Your task to perform on an android device: Search for "logitech g910" on target.com, select the first entry, add it to the cart, then select checkout. Image 0: 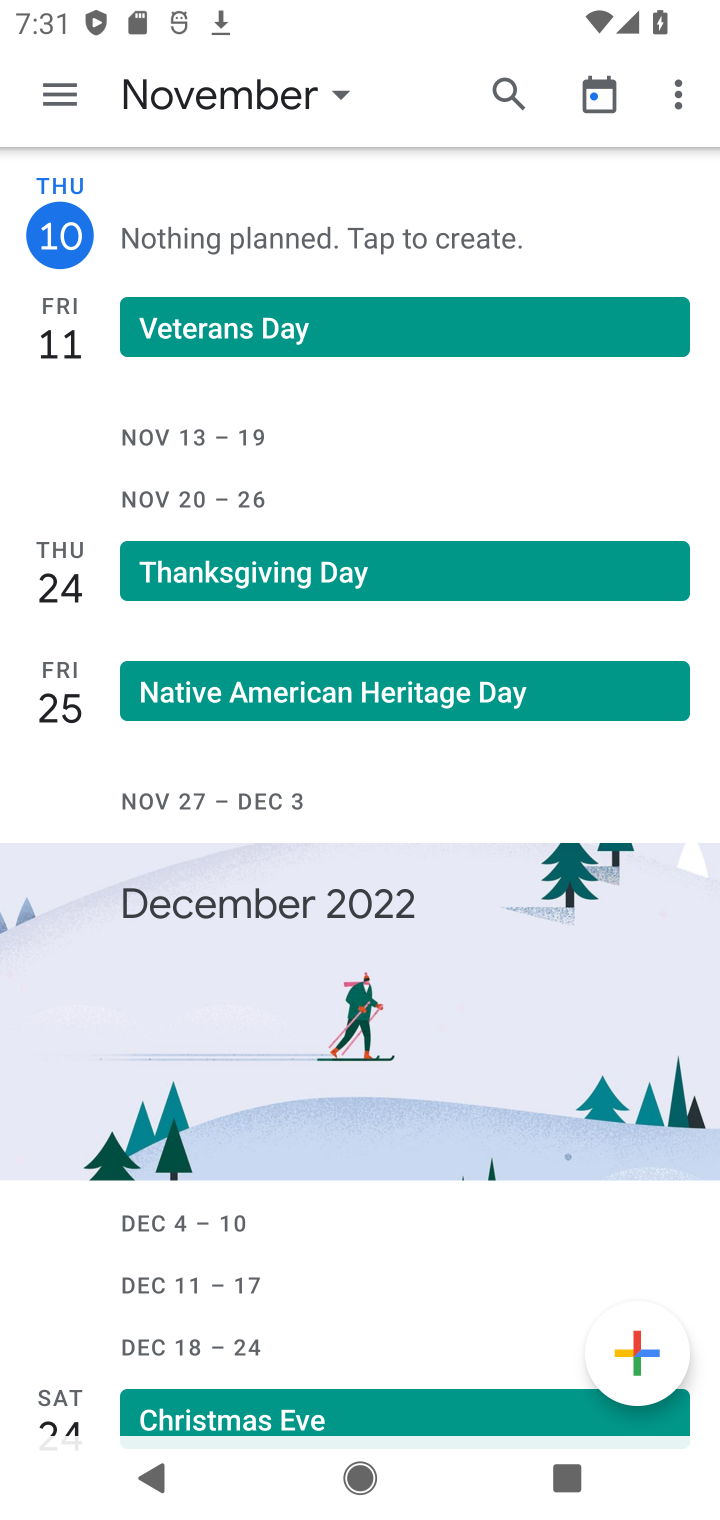
Step 0: press home button
Your task to perform on an android device: Search for "logitech g910" on target.com, select the first entry, add it to the cart, then select checkout. Image 1: 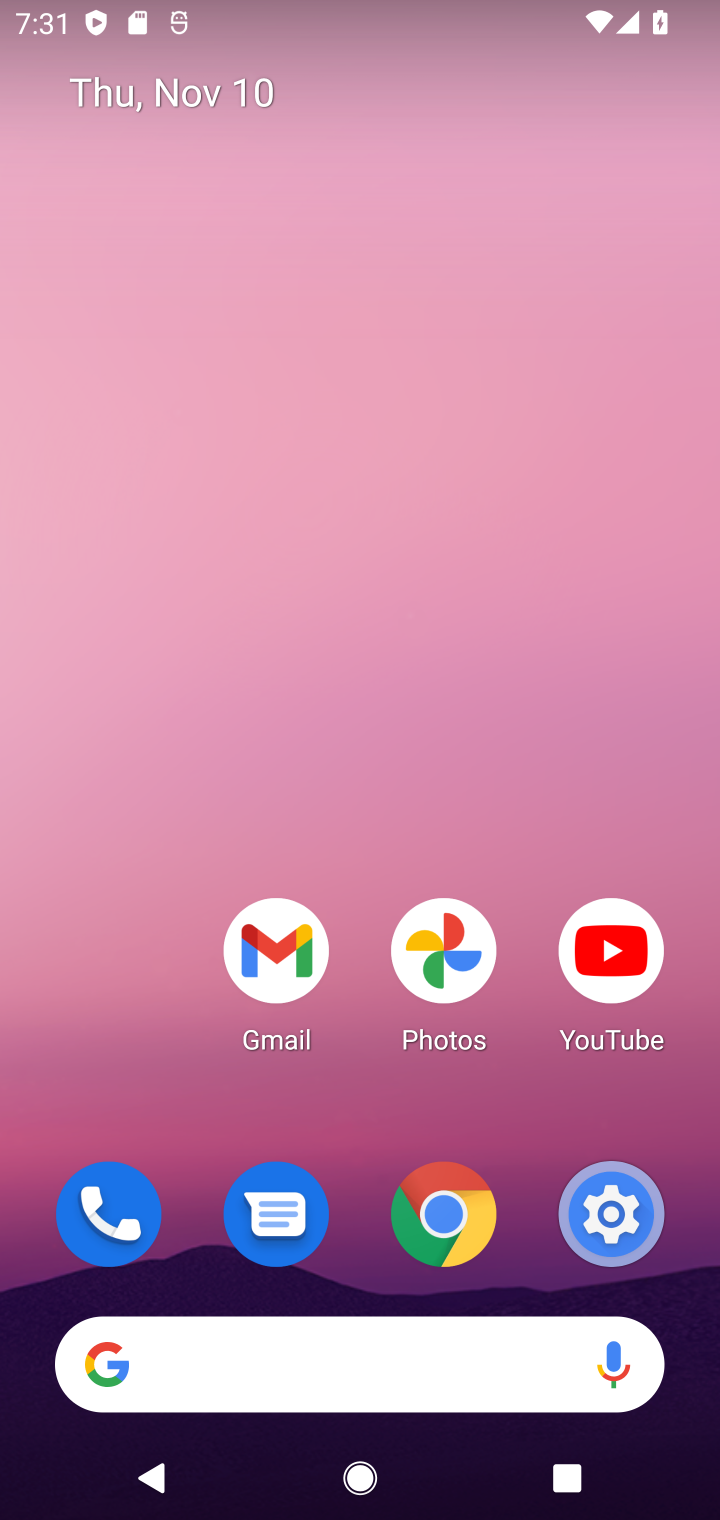
Step 1: drag from (151, 918) to (187, 380)
Your task to perform on an android device: Search for "logitech g910" on target.com, select the first entry, add it to the cart, then select checkout. Image 2: 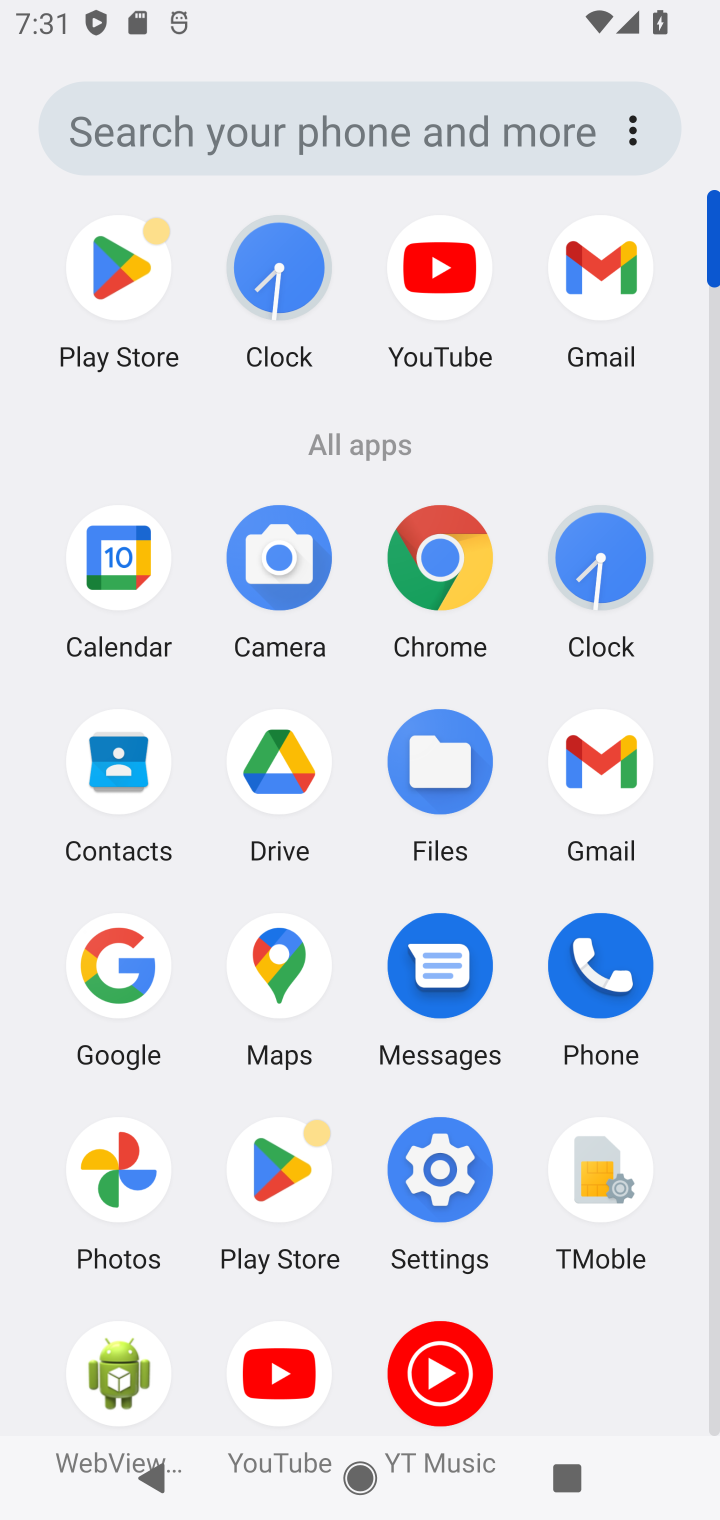
Step 2: click (454, 585)
Your task to perform on an android device: Search for "logitech g910" on target.com, select the first entry, add it to the cart, then select checkout. Image 3: 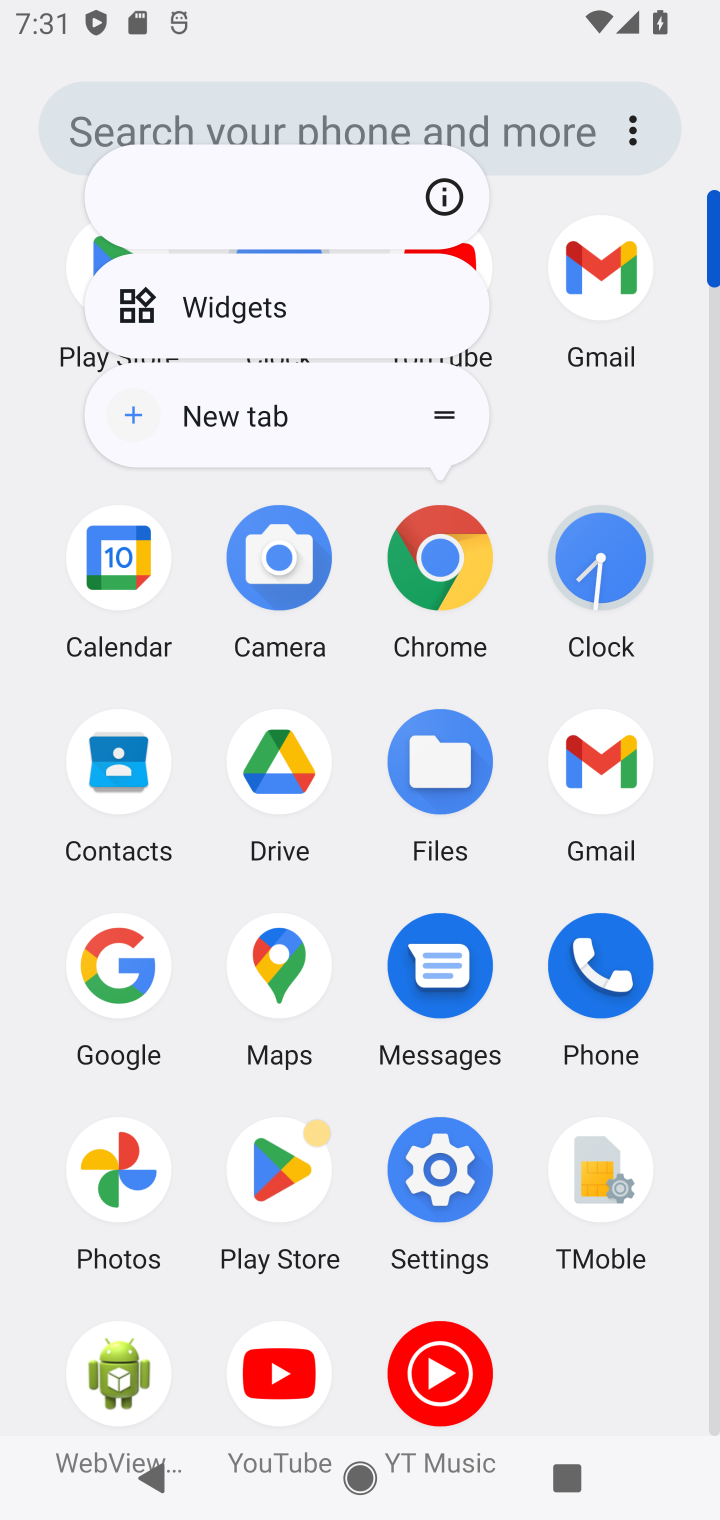
Step 3: click (454, 585)
Your task to perform on an android device: Search for "logitech g910" on target.com, select the first entry, add it to the cart, then select checkout. Image 4: 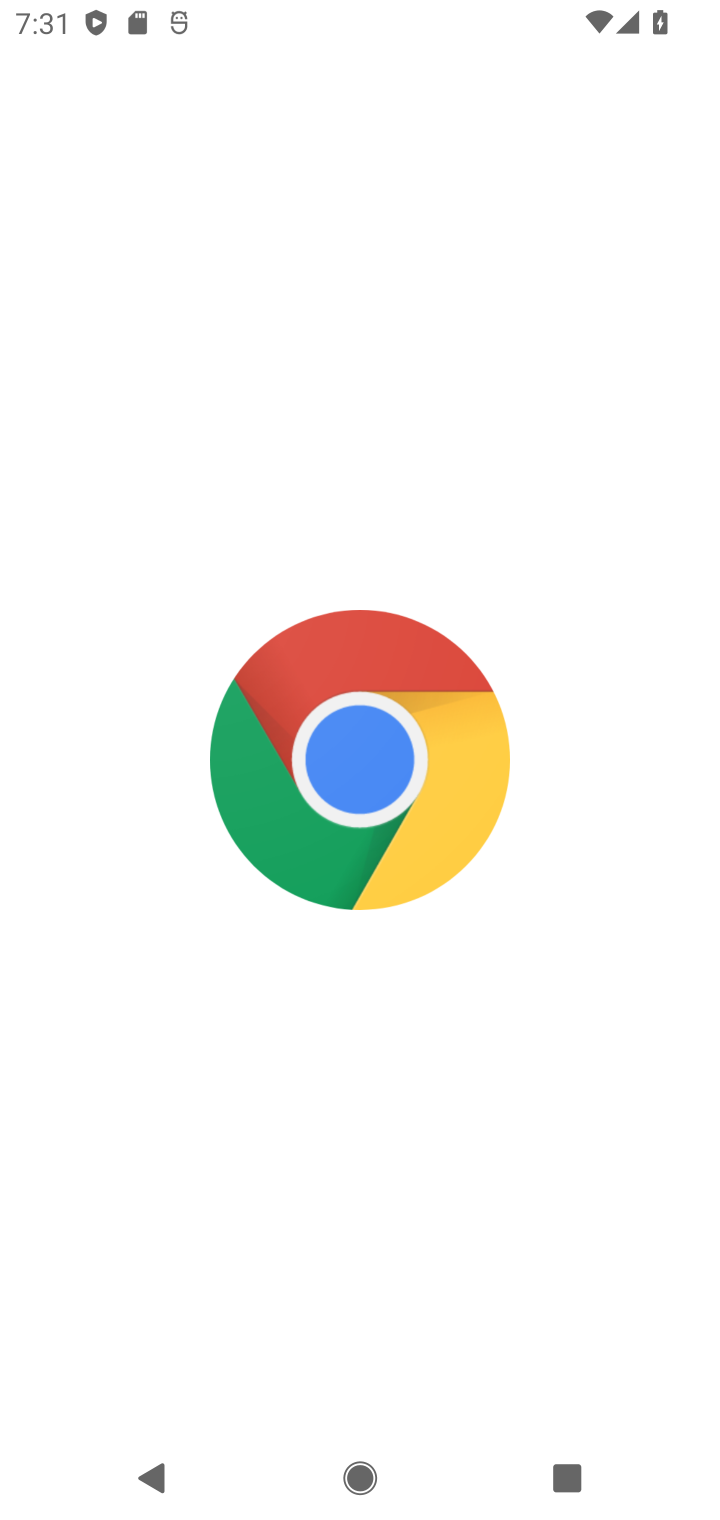
Step 4: click (454, 559)
Your task to perform on an android device: Search for "logitech g910" on target.com, select the first entry, add it to the cart, then select checkout. Image 5: 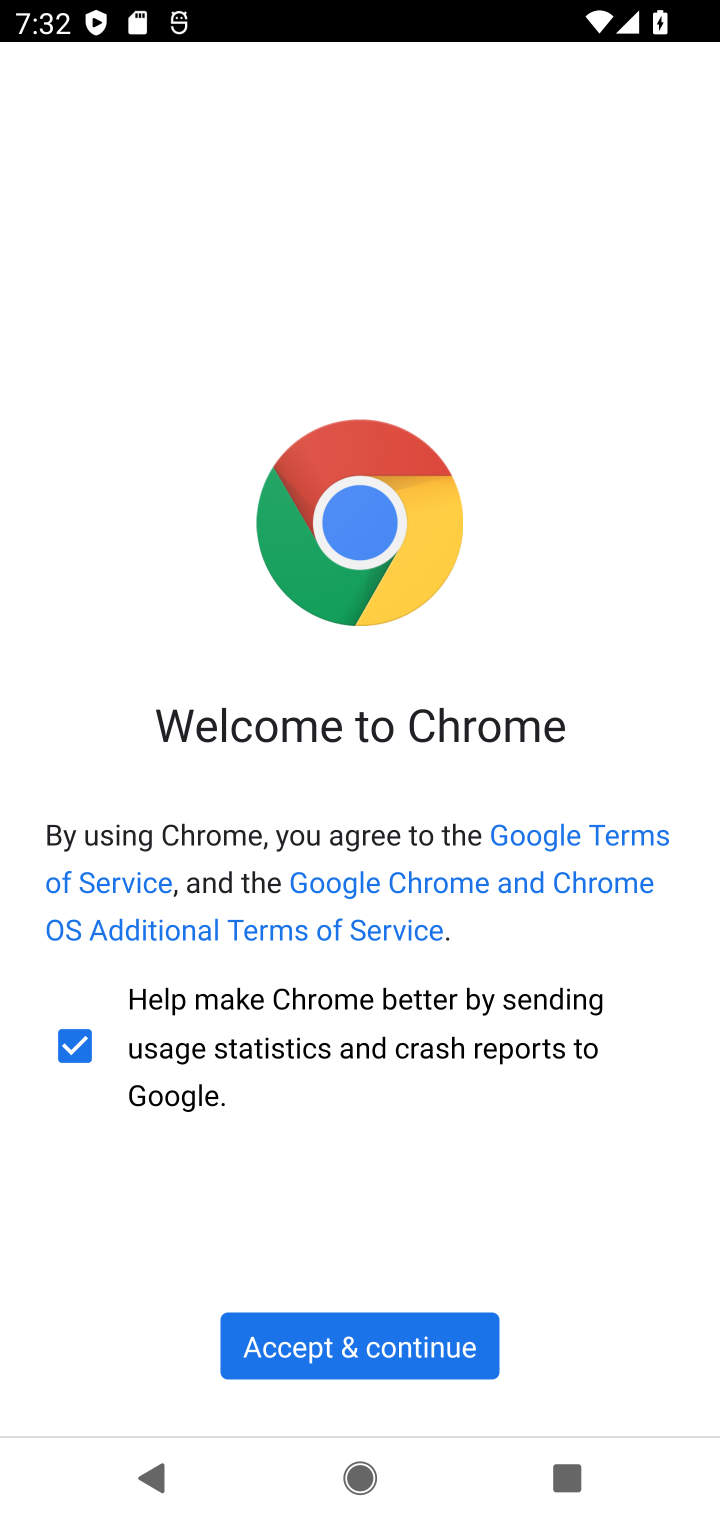
Step 5: click (365, 1326)
Your task to perform on an android device: Search for "logitech g910" on target.com, select the first entry, add it to the cart, then select checkout. Image 6: 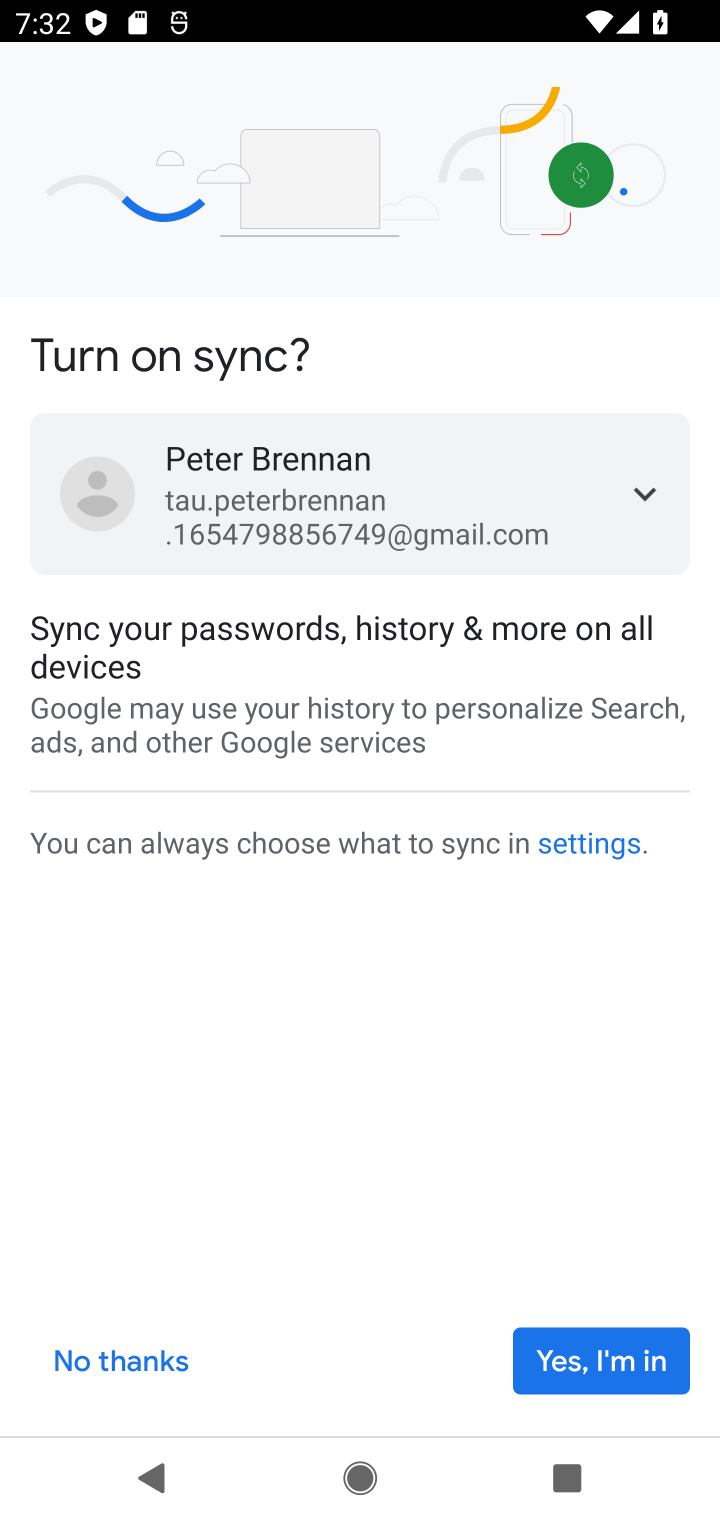
Step 6: click (654, 1343)
Your task to perform on an android device: Search for "logitech g910" on target.com, select the first entry, add it to the cart, then select checkout. Image 7: 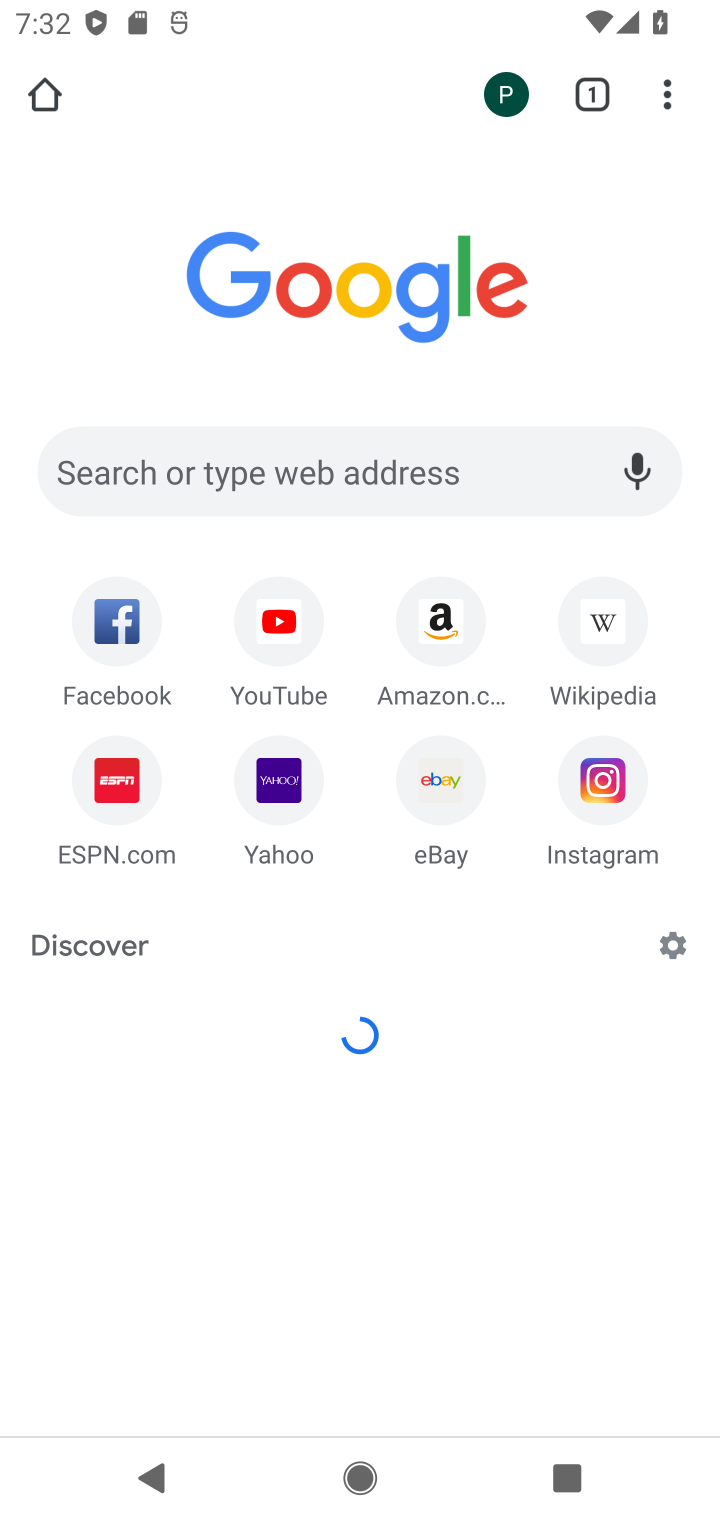
Step 7: click (236, 481)
Your task to perform on an android device: Search for "logitech g910" on target.com, select the first entry, add it to the cart, then select checkout. Image 8: 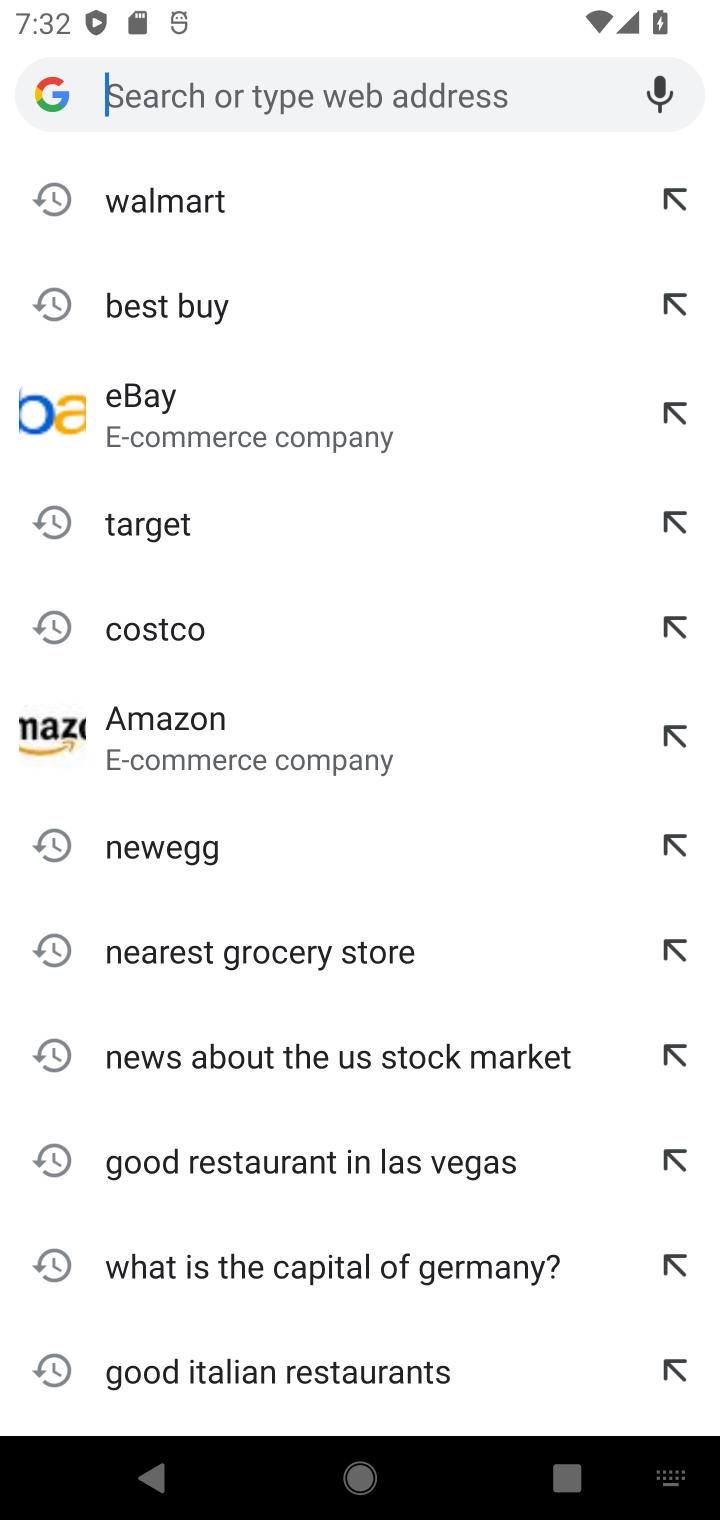
Step 8: type "target.com"
Your task to perform on an android device: Search for "logitech g910" on target.com, select the first entry, add it to the cart, then select checkout. Image 9: 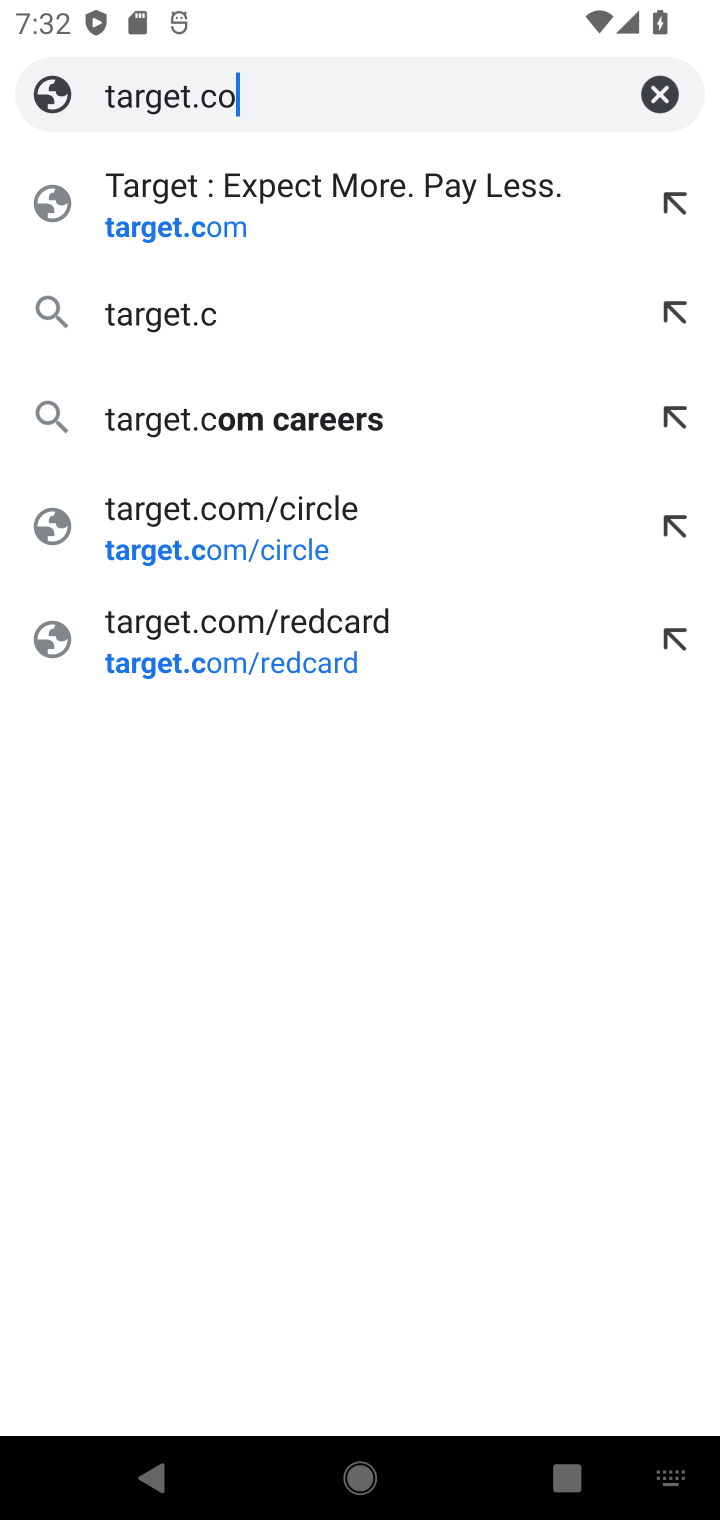
Step 9: press enter
Your task to perform on an android device: Search for "logitech g910" on target.com, select the first entry, add it to the cart, then select checkout. Image 10: 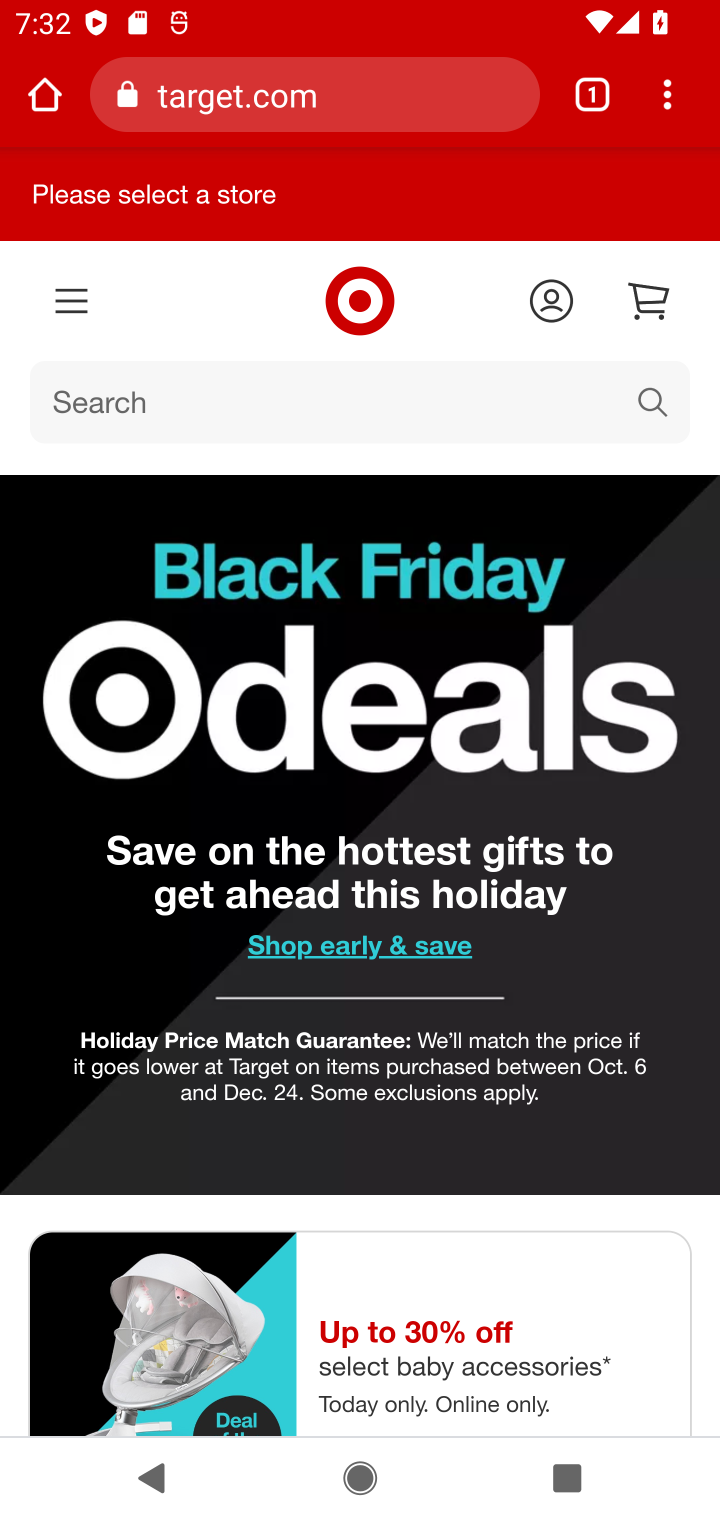
Step 10: click (140, 392)
Your task to perform on an android device: Search for "logitech g910" on target.com, select the first entry, add it to the cart, then select checkout. Image 11: 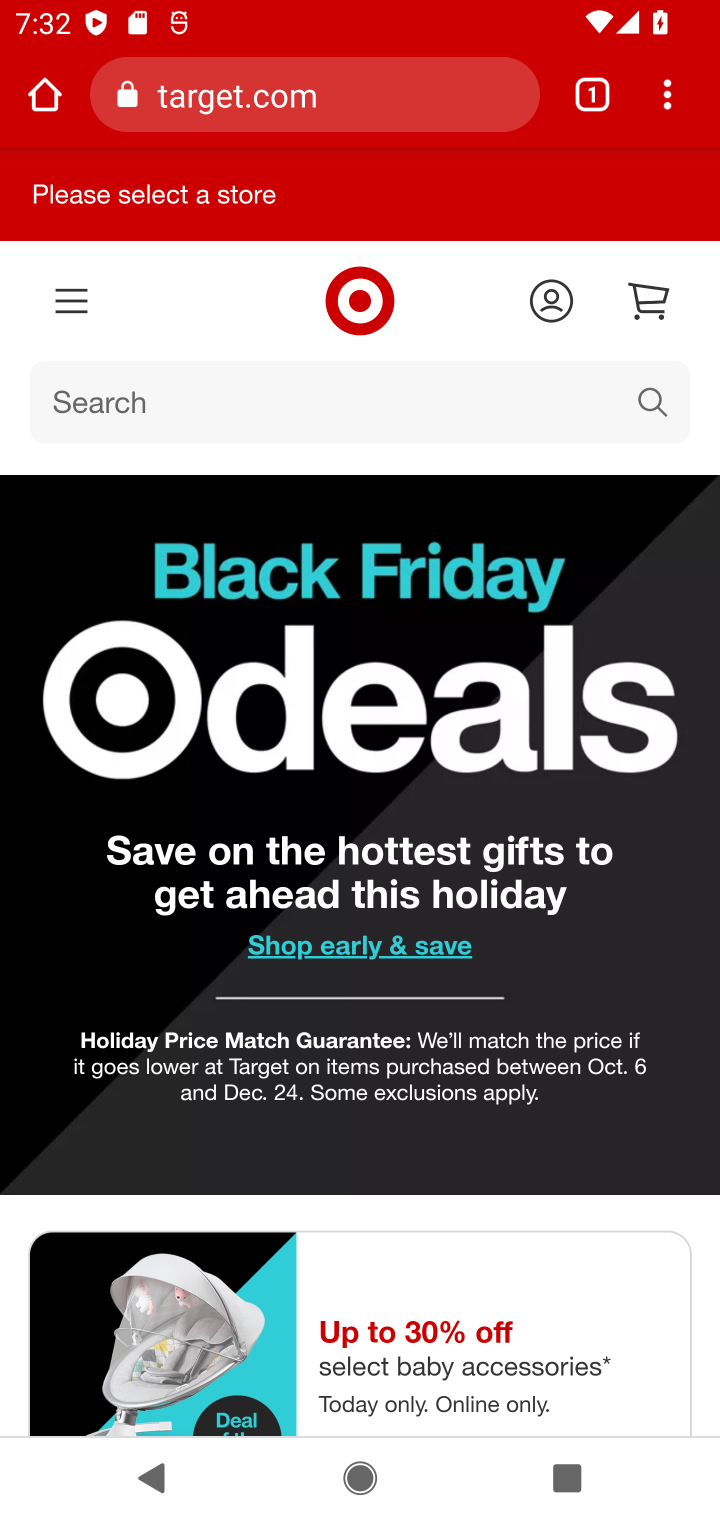
Step 11: type "logitech g910"
Your task to perform on an android device: Search for "logitech g910" on target.com, select the first entry, add it to the cart, then select checkout. Image 12: 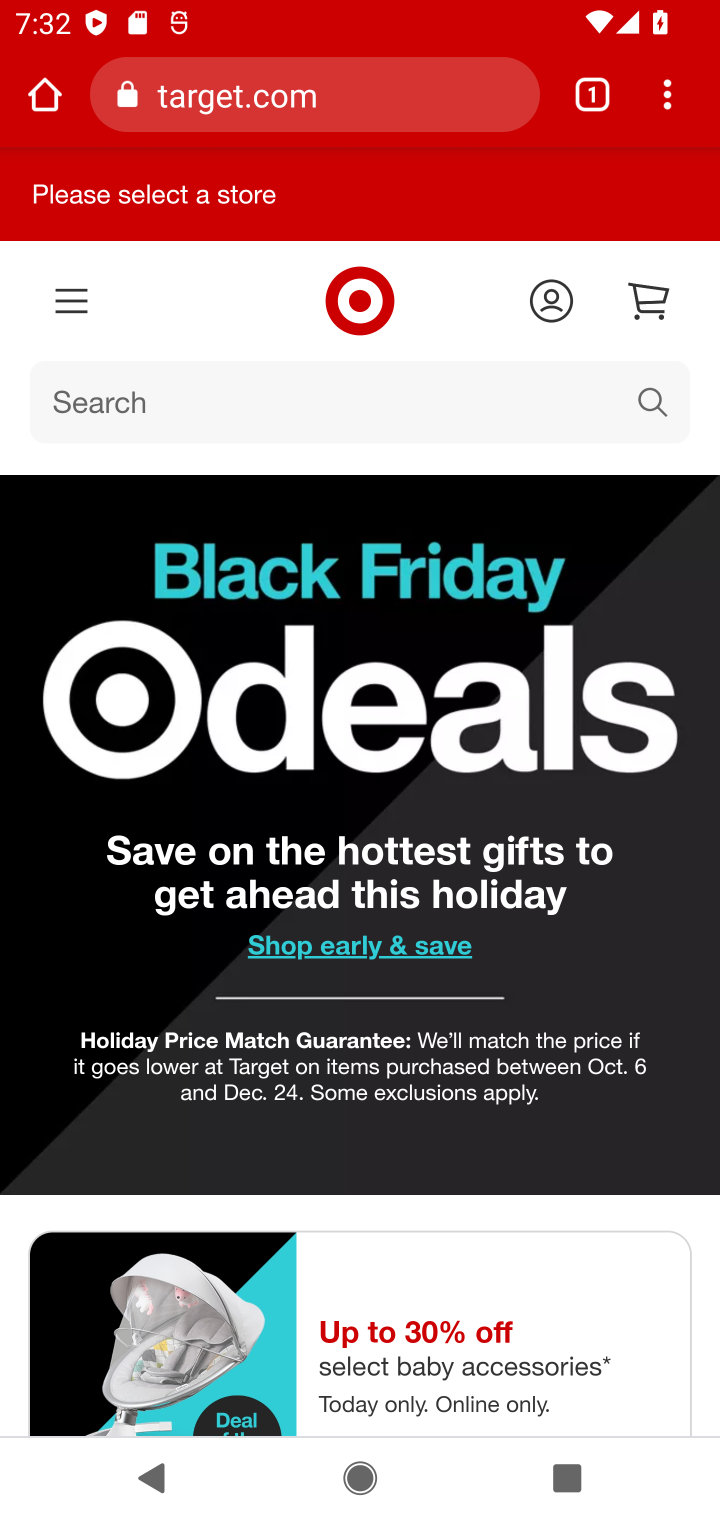
Step 12: press enter
Your task to perform on an android device: Search for "logitech g910" on target.com, select the first entry, add it to the cart, then select checkout. Image 13: 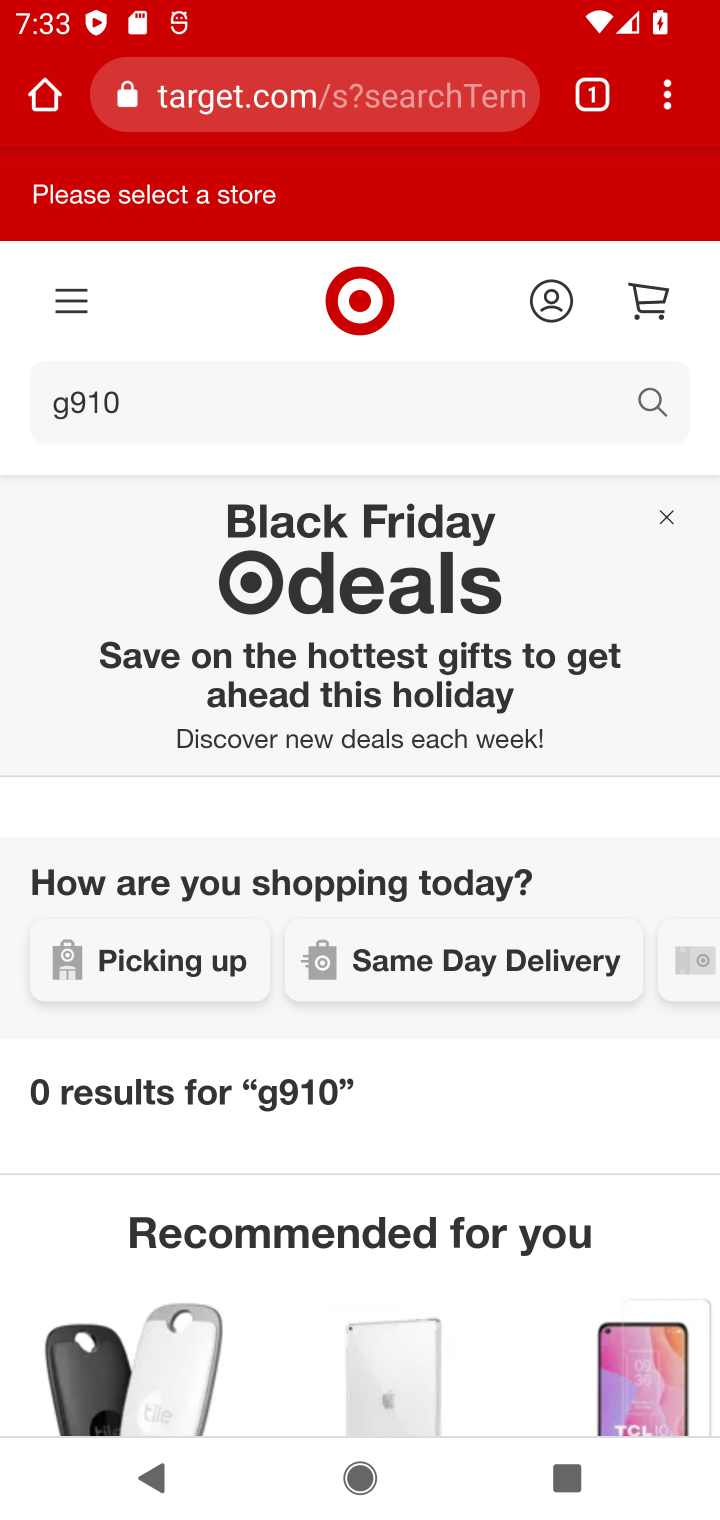
Step 13: click (305, 402)
Your task to perform on an android device: Search for "logitech g910" on target.com, select the first entry, add it to the cart, then select checkout. Image 14: 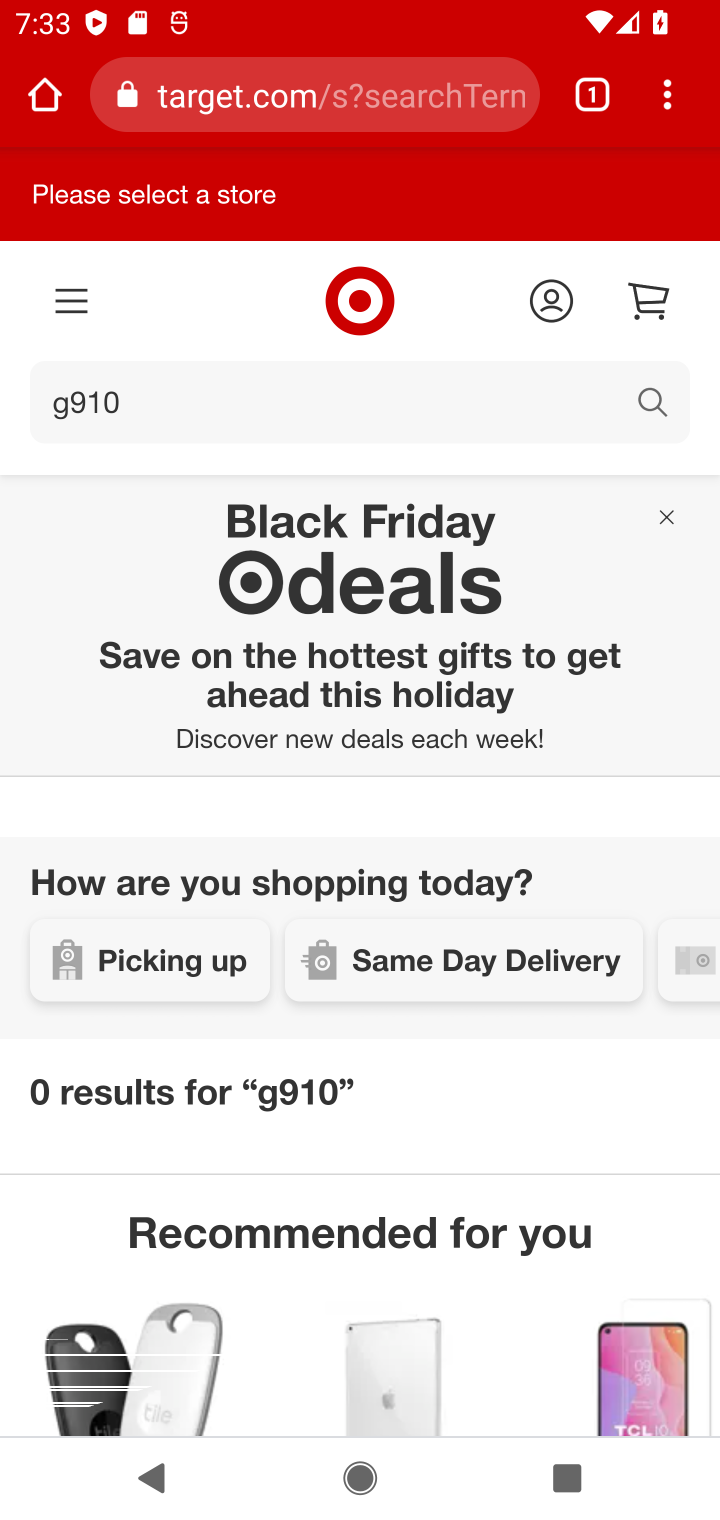
Step 14: click (305, 402)
Your task to perform on an android device: Search for "logitech g910" on target.com, select the first entry, add it to the cart, then select checkout. Image 15: 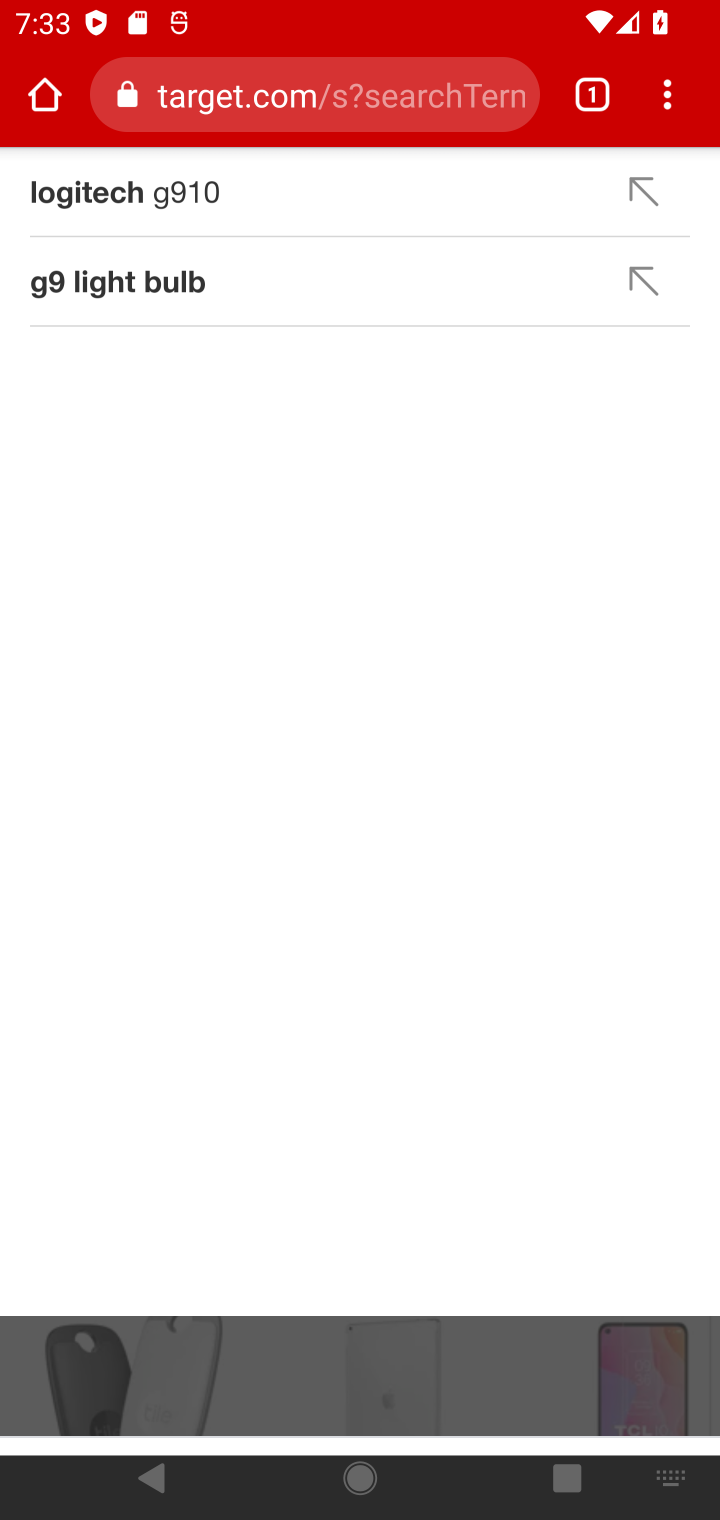
Step 15: click (305, 402)
Your task to perform on an android device: Search for "logitech g910" on target.com, select the first entry, add it to the cart, then select checkout. Image 16: 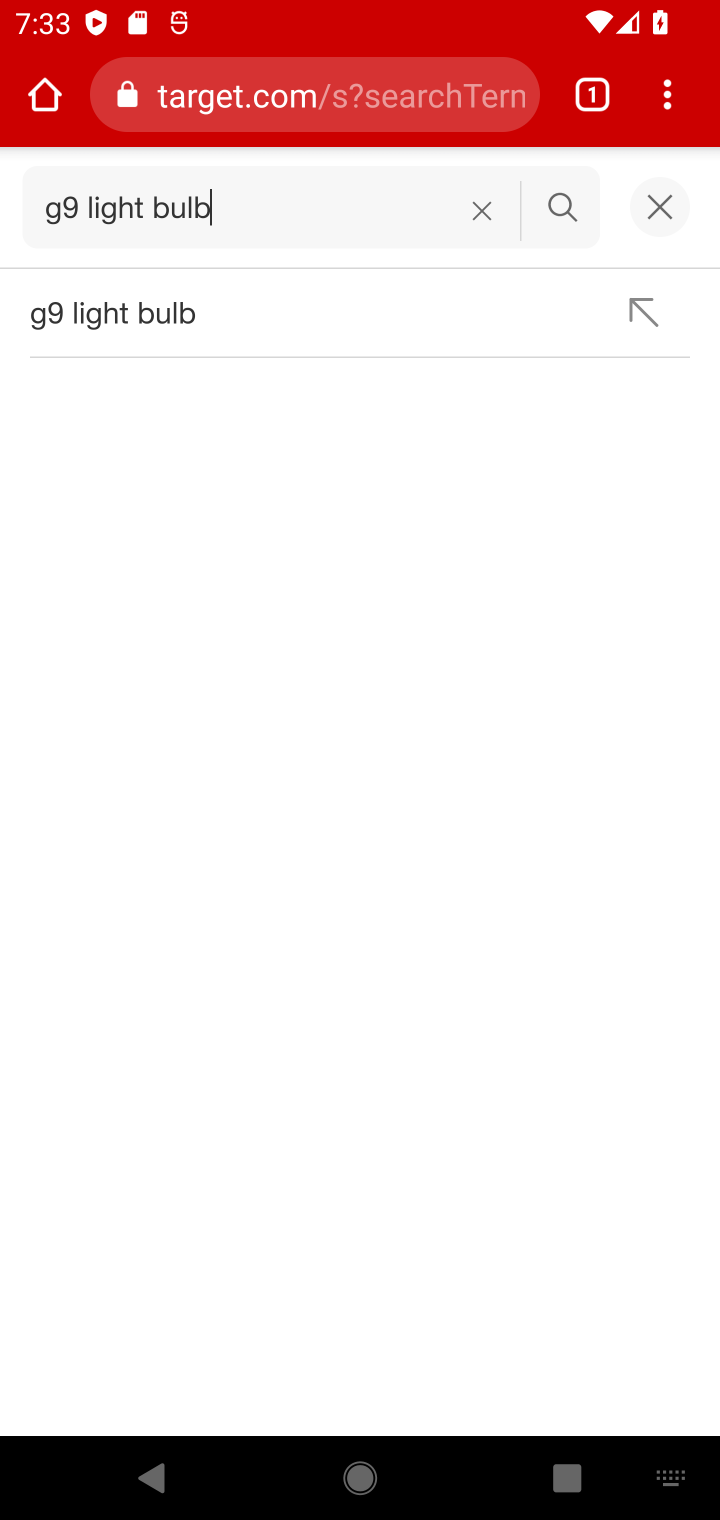
Step 16: click (321, 400)
Your task to perform on an android device: Search for "logitech g910" on target.com, select the first entry, add it to the cart, then select checkout. Image 17: 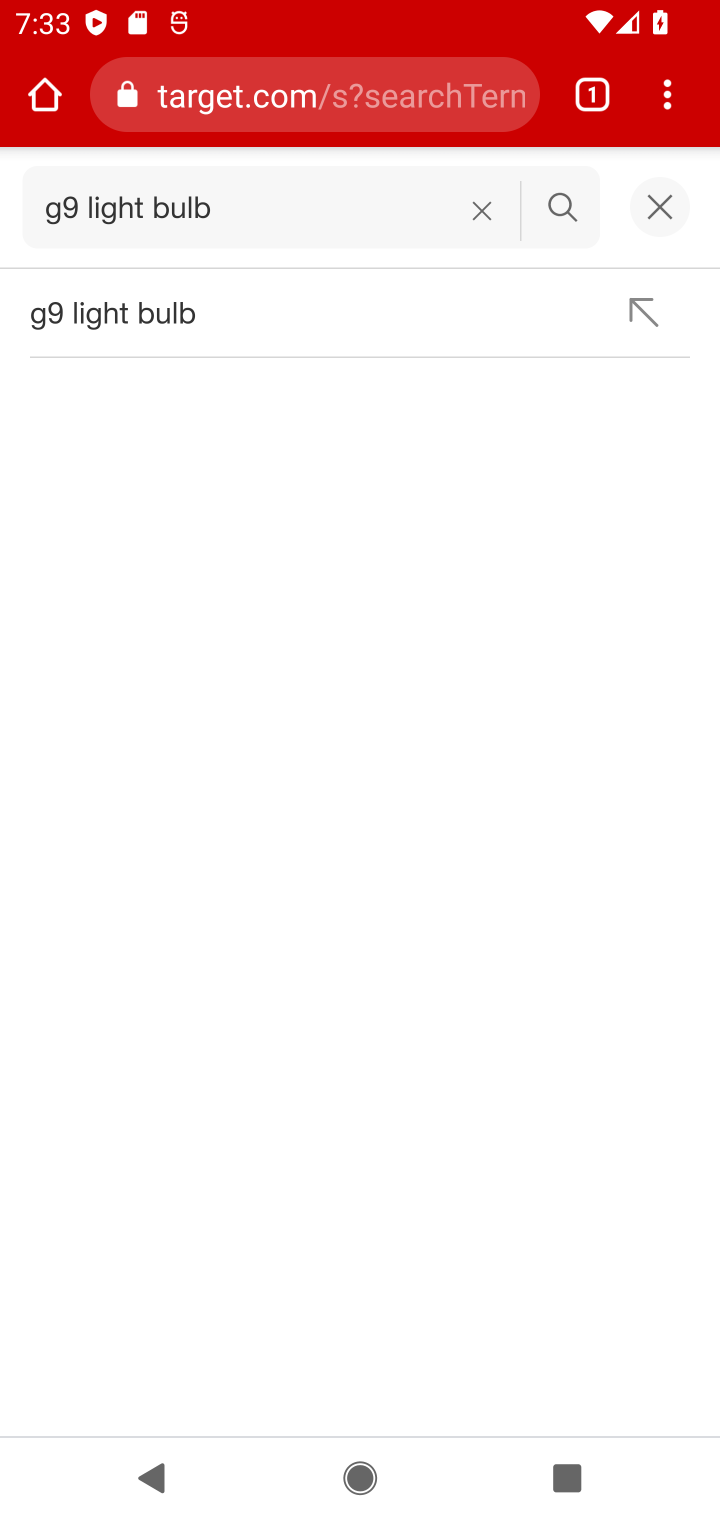
Step 17: click (480, 209)
Your task to perform on an android device: Search for "logitech g910" on target.com, select the first entry, add it to the cart, then select checkout. Image 18: 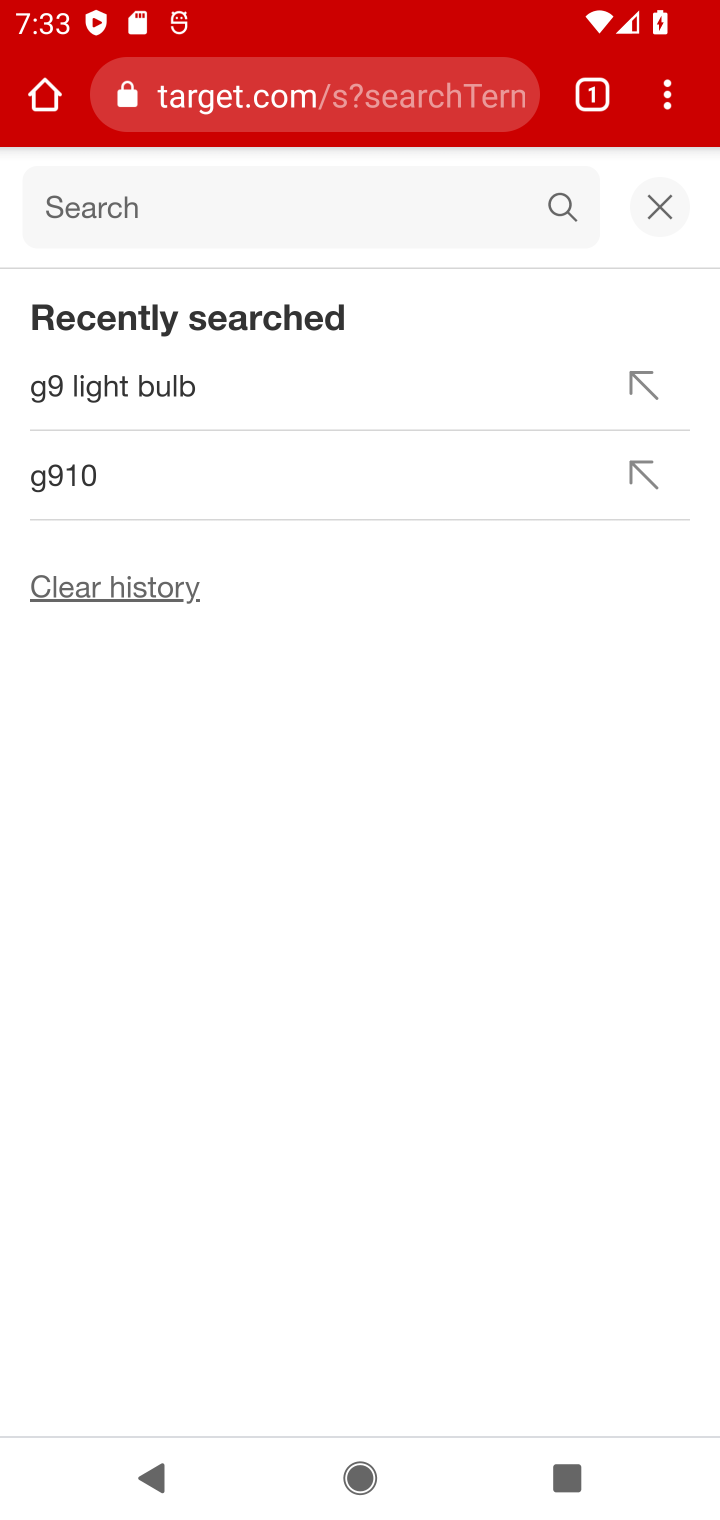
Step 18: click (474, 218)
Your task to perform on an android device: Search for "logitech g910" on target.com, select the first entry, add it to the cart, then select checkout. Image 19: 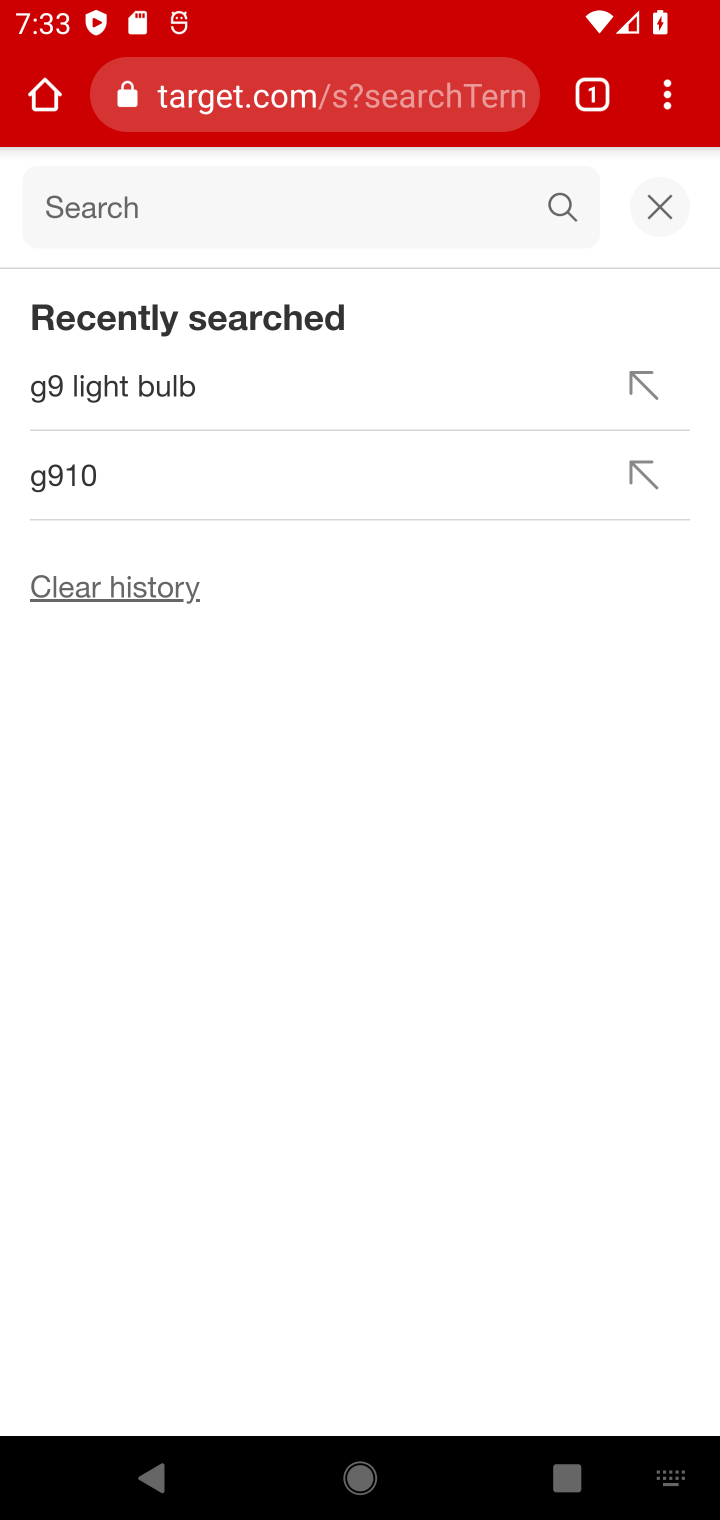
Step 19: type "logitech g910"
Your task to perform on an android device: Search for "logitech g910" on target.com, select the first entry, add it to the cart, then select checkout. Image 20: 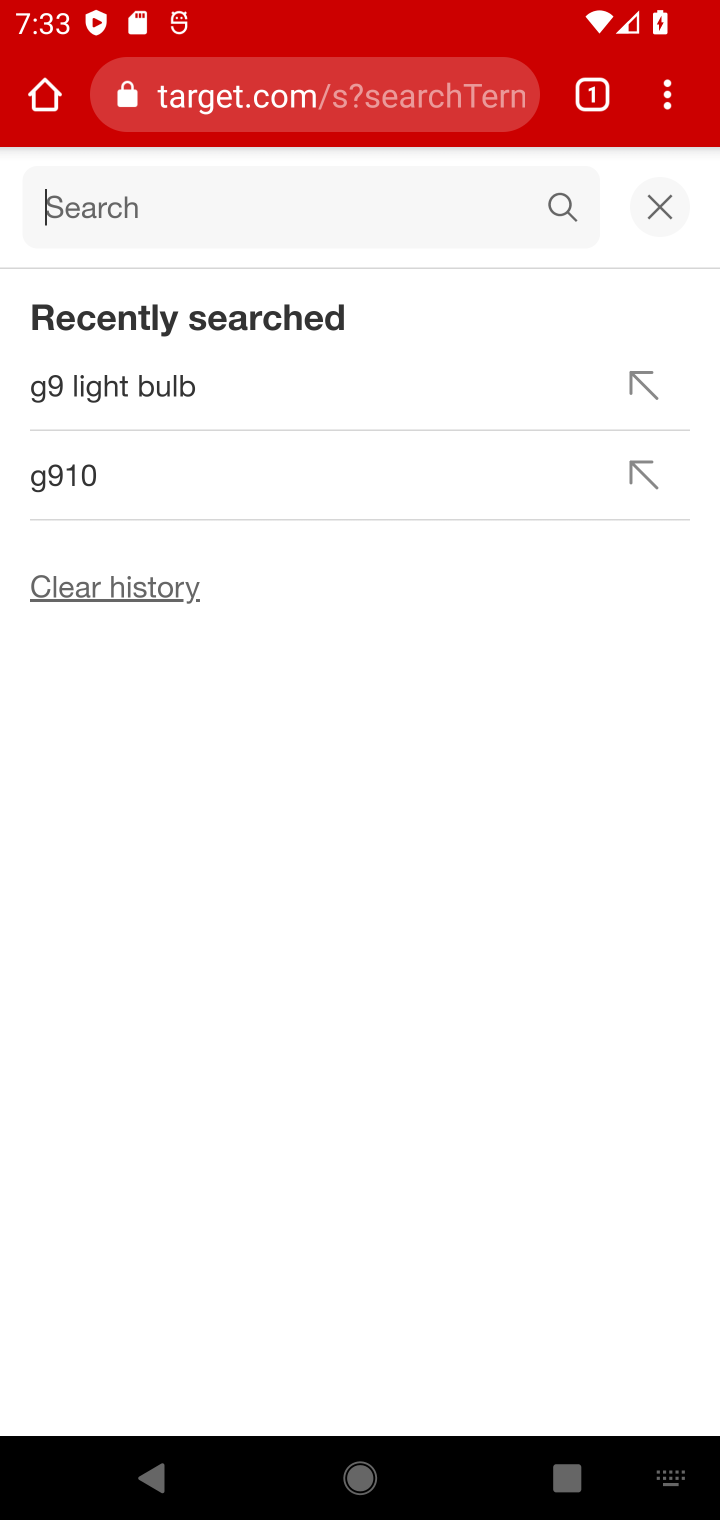
Step 20: press enter
Your task to perform on an android device: Search for "logitech g910" on target.com, select the first entry, add it to the cart, then select checkout. Image 21: 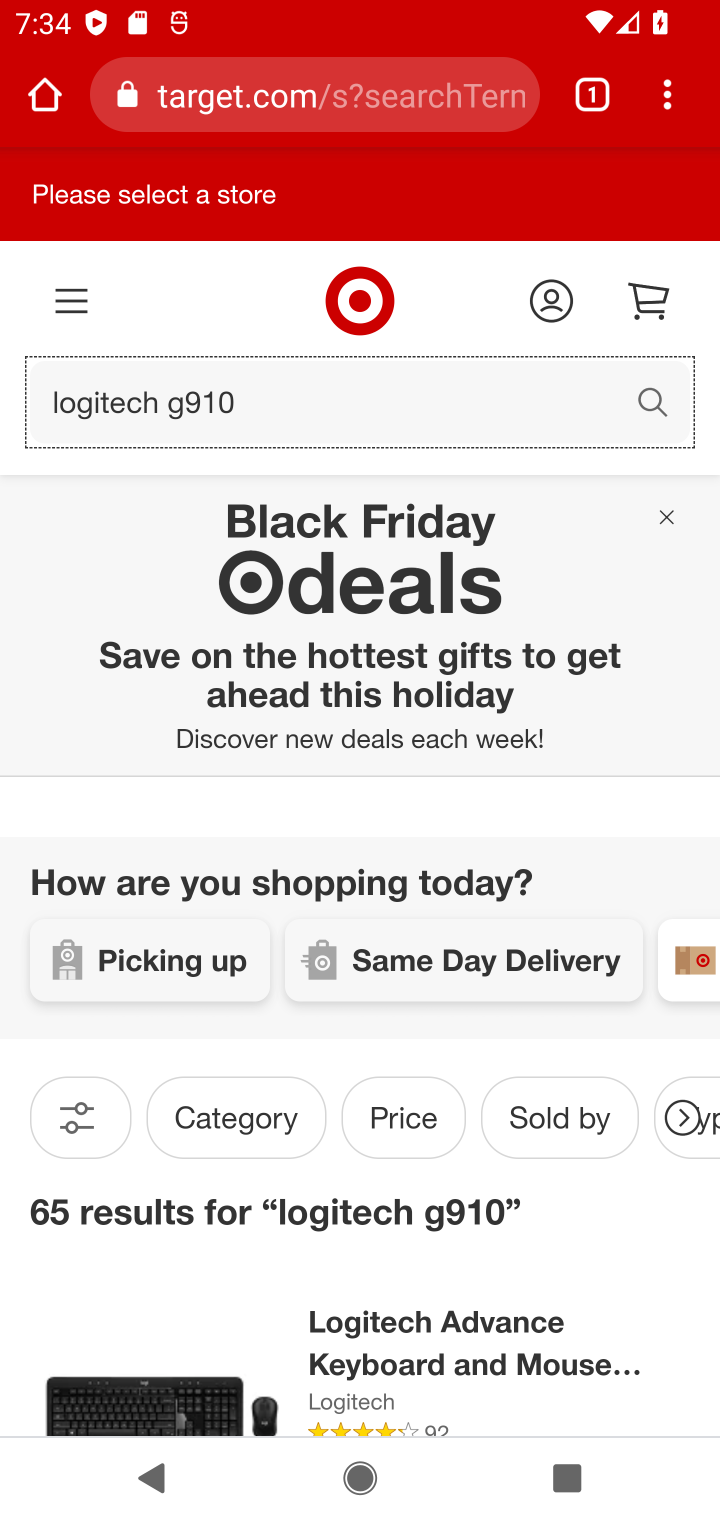
Step 21: click (336, 454)
Your task to perform on an android device: Search for "logitech g910" on target.com, select the first entry, add it to the cart, then select checkout. Image 22: 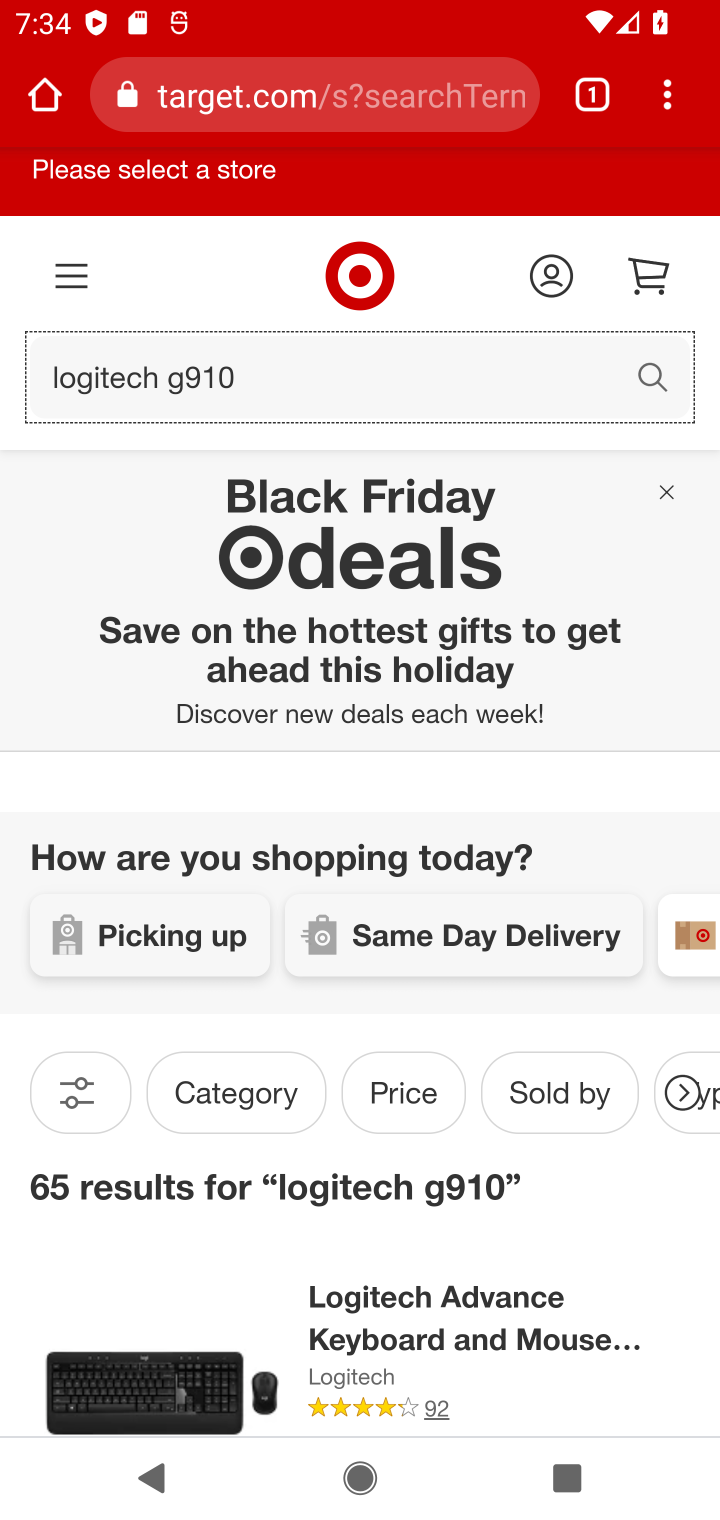
Step 22: drag from (363, 1209) to (336, 613)
Your task to perform on an android device: Search for "logitech g910" on target.com, select the first entry, add it to the cart, then select checkout. Image 23: 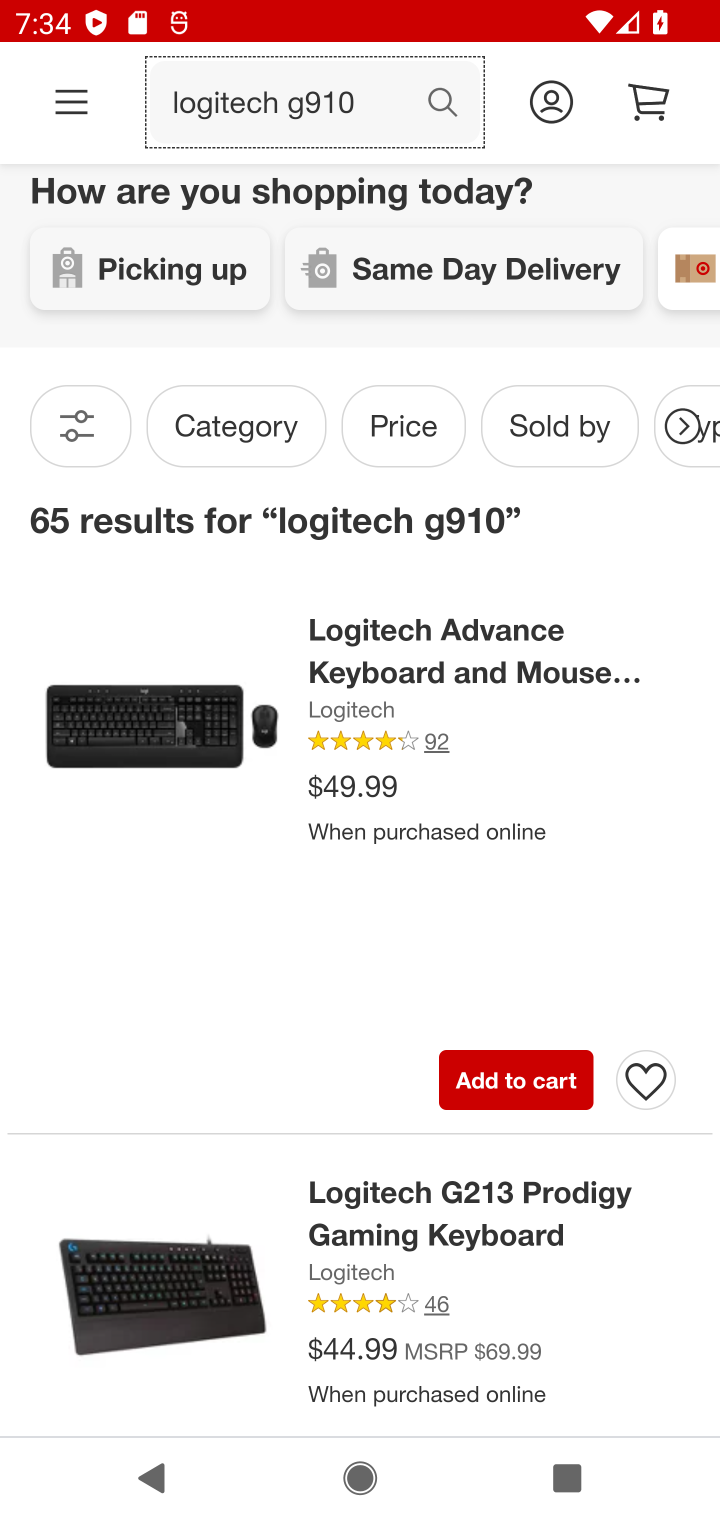
Step 23: click (526, 1070)
Your task to perform on an android device: Search for "logitech g910" on target.com, select the first entry, add it to the cart, then select checkout. Image 24: 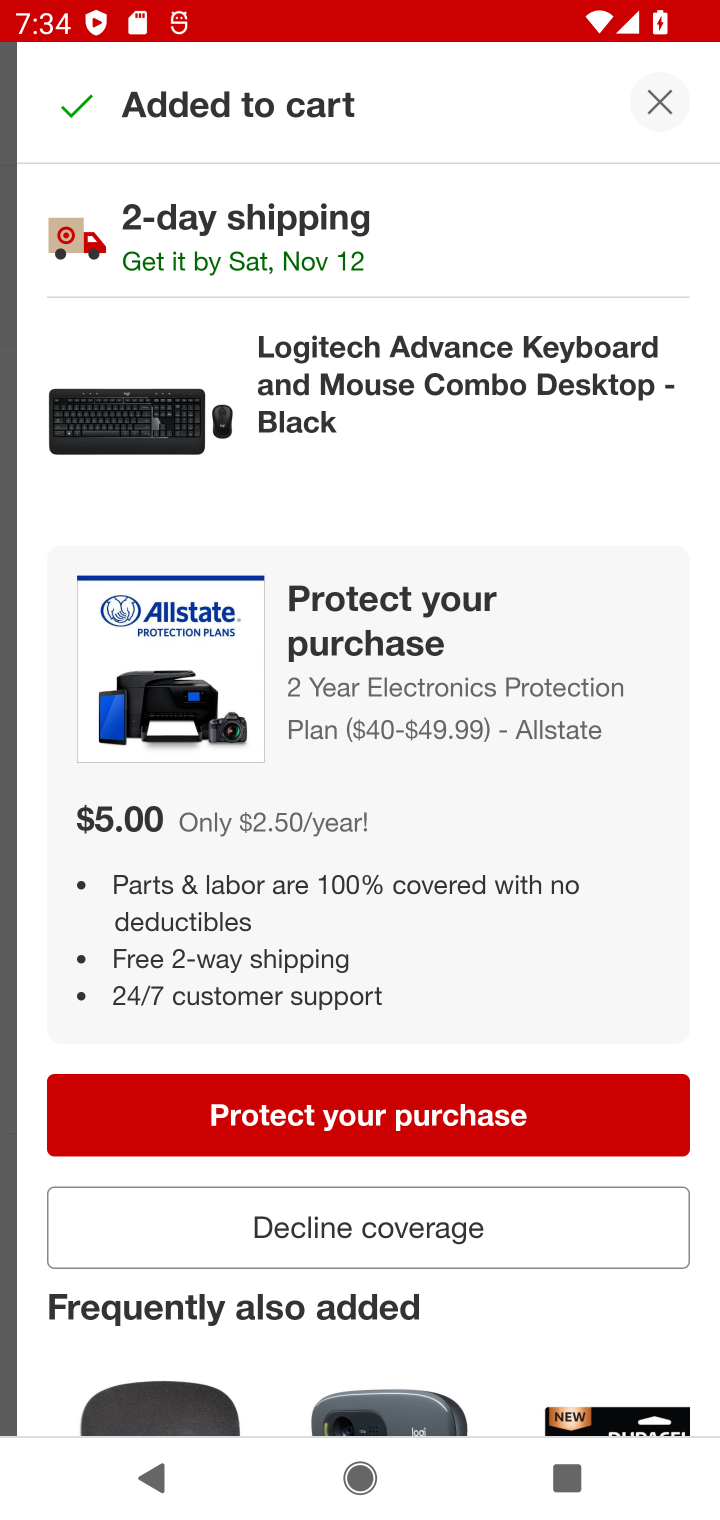
Step 24: click (670, 97)
Your task to perform on an android device: Search for "logitech g910" on target.com, select the first entry, add it to the cart, then select checkout. Image 25: 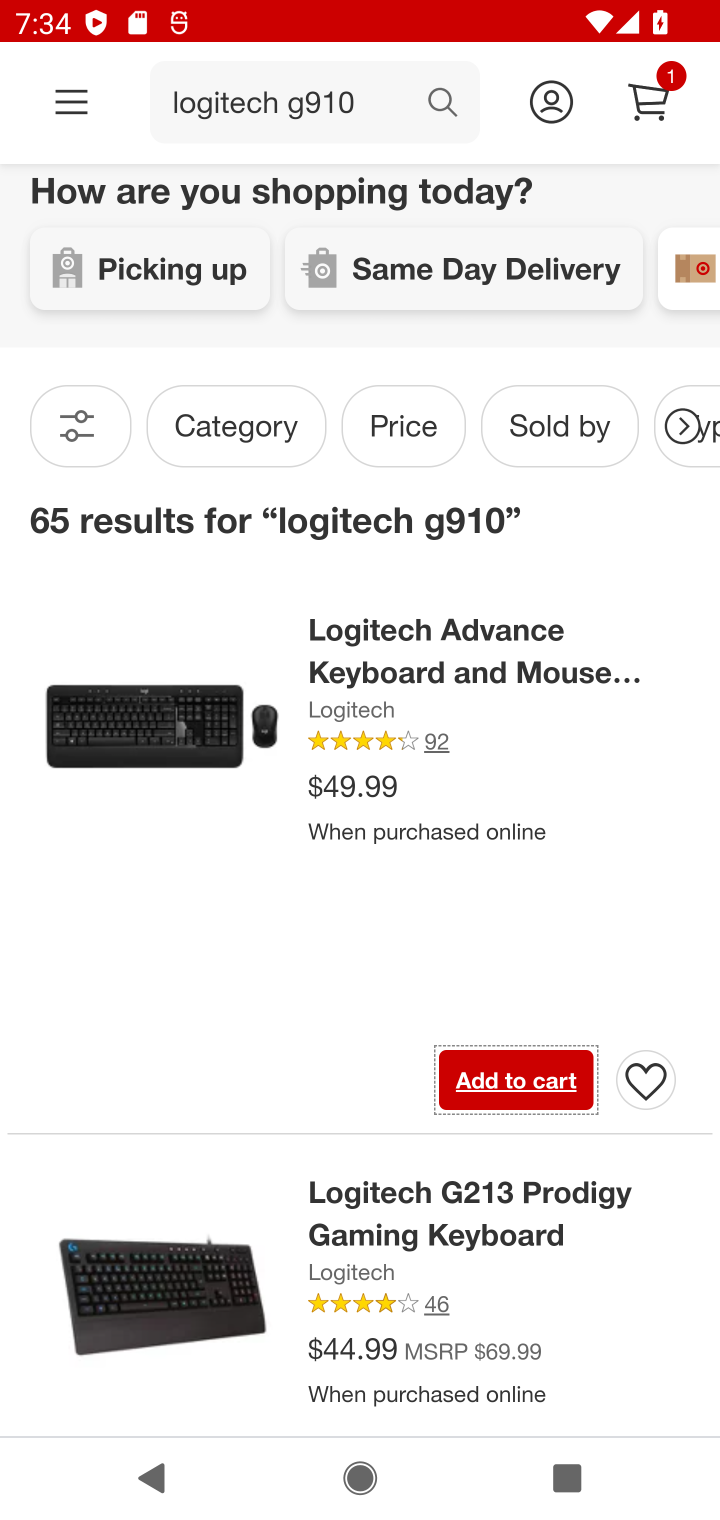
Step 25: click (641, 103)
Your task to perform on an android device: Search for "logitech g910" on target.com, select the first entry, add it to the cart, then select checkout. Image 26: 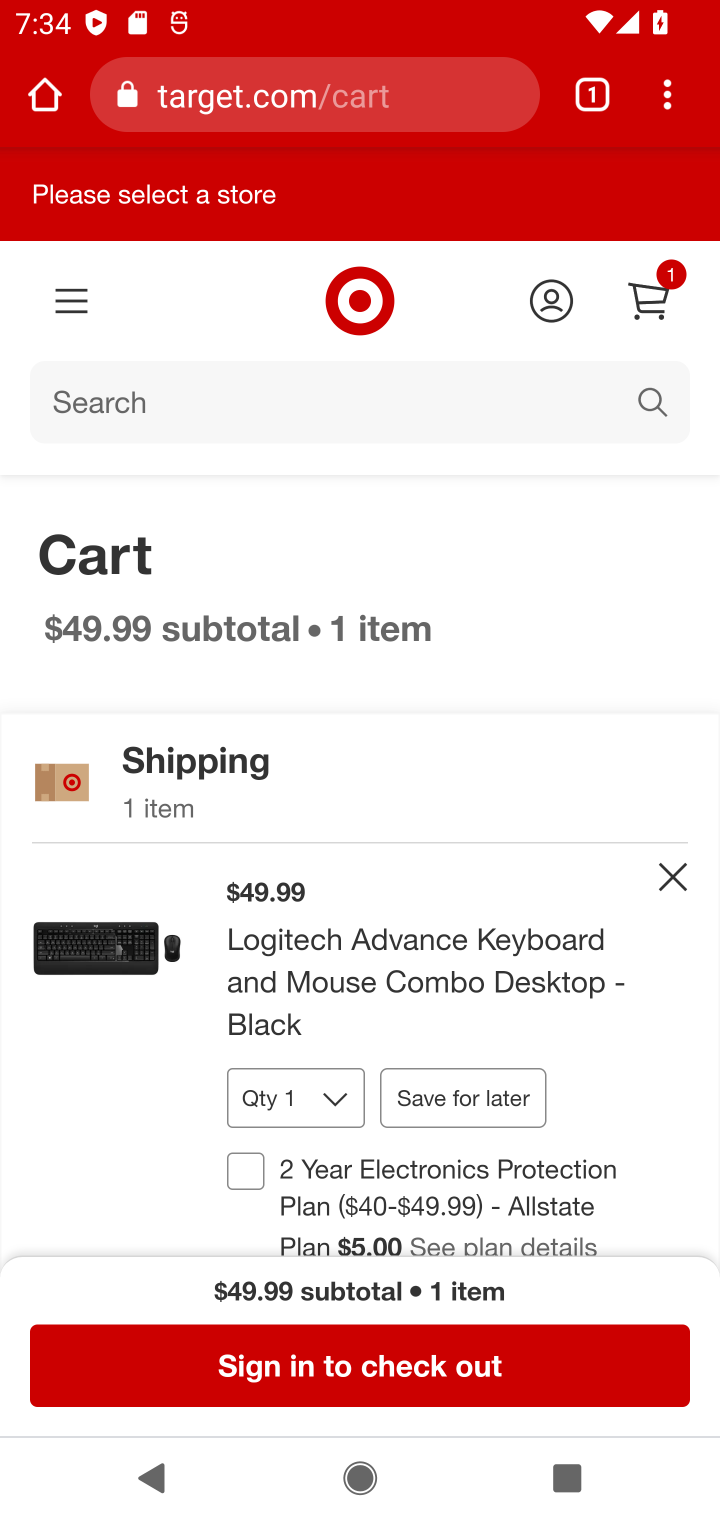
Step 26: drag from (392, 1155) to (405, 604)
Your task to perform on an android device: Search for "logitech g910" on target.com, select the first entry, add it to the cart, then select checkout. Image 27: 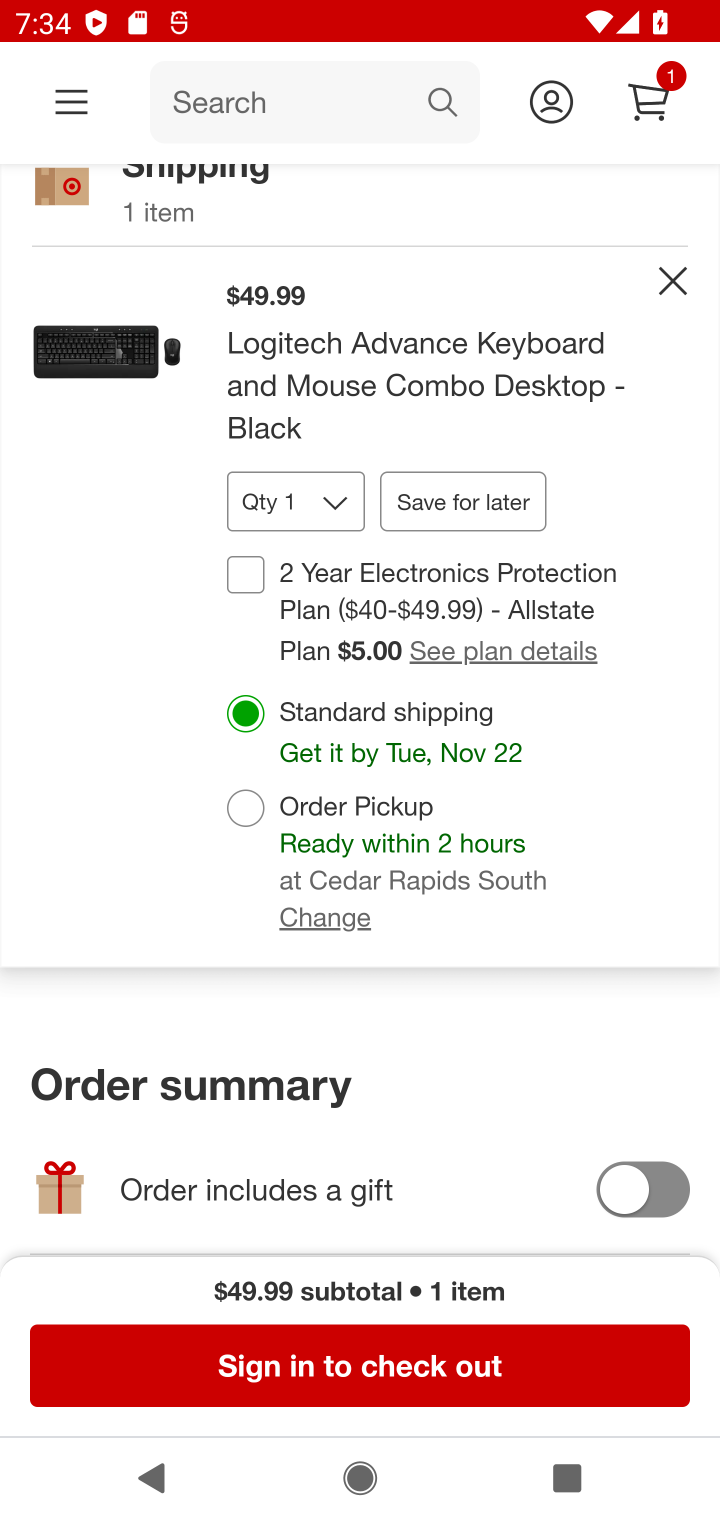
Step 27: drag from (362, 1051) to (358, 479)
Your task to perform on an android device: Search for "logitech g910" on target.com, select the first entry, add it to the cart, then select checkout. Image 28: 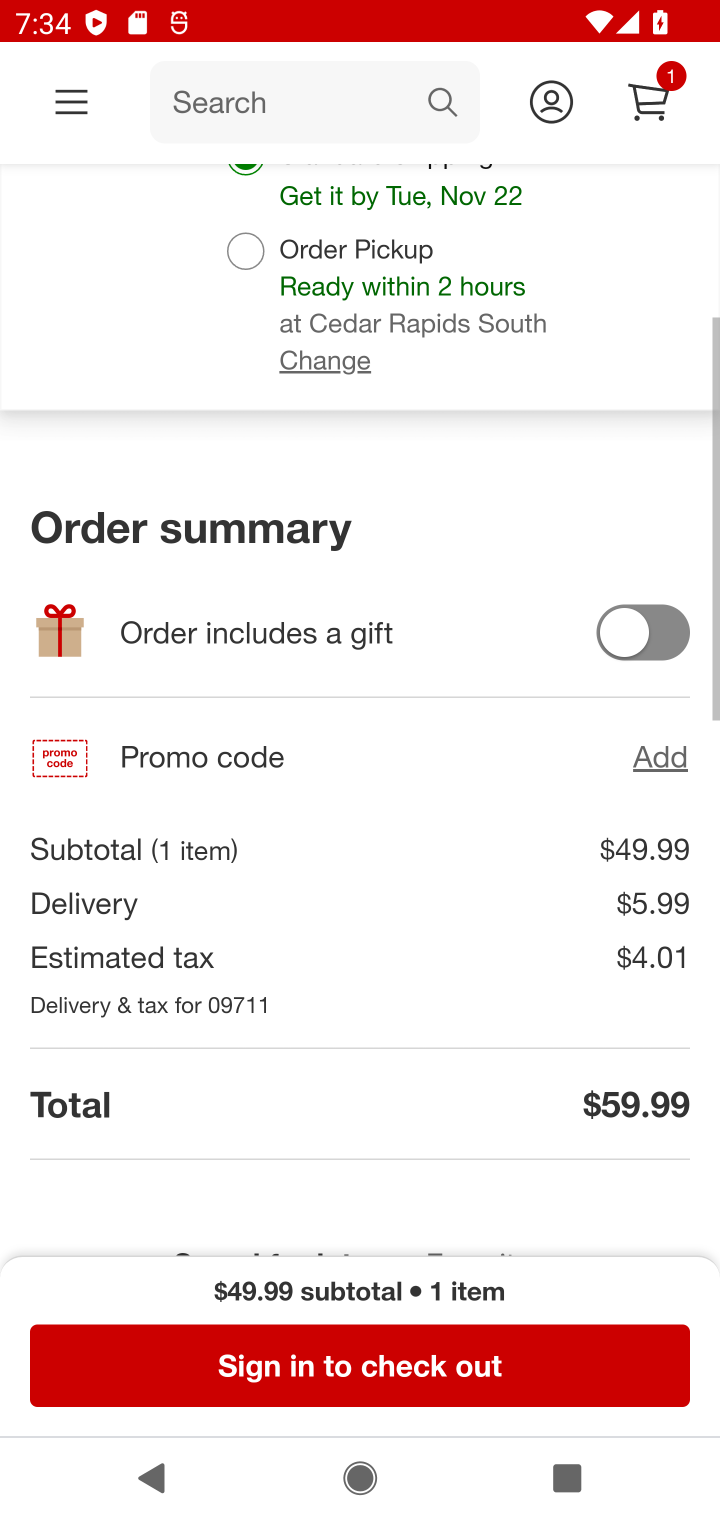
Step 28: drag from (316, 889) to (324, 507)
Your task to perform on an android device: Search for "logitech g910" on target.com, select the first entry, add it to the cart, then select checkout. Image 29: 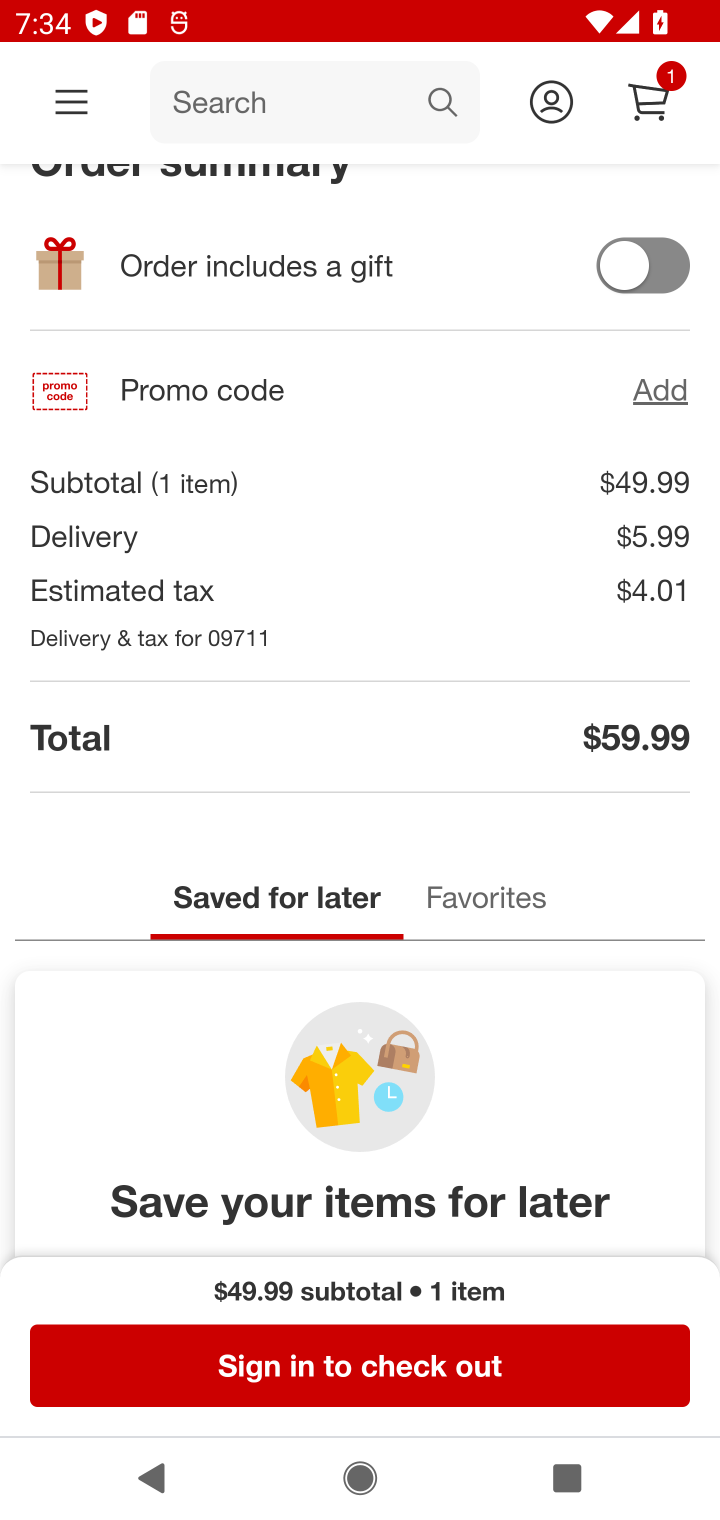
Step 29: drag from (369, 497) to (398, 1181)
Your task to perform on an android device: Search for "logitech g910" on target.com, select the first entry, add it to the cart, then select checkout. Image 30: 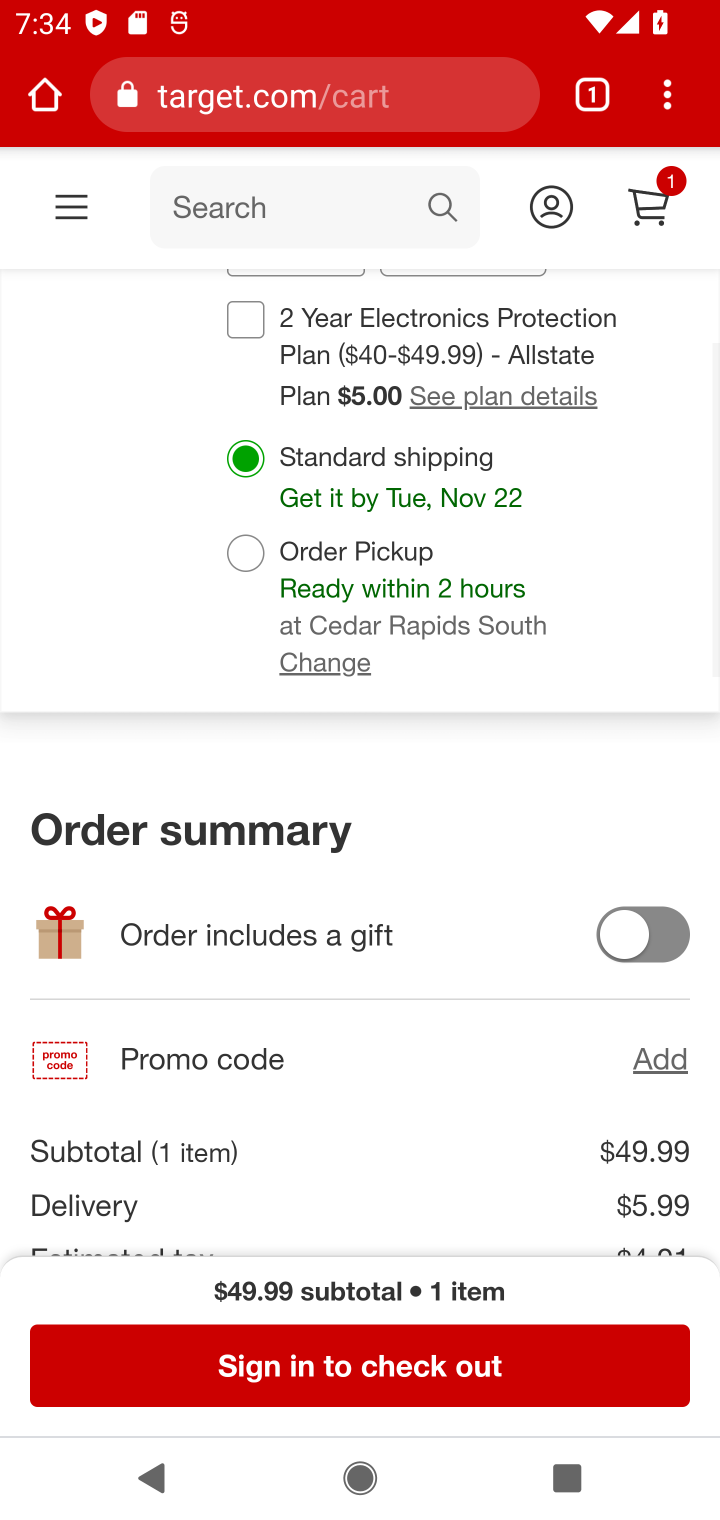
Step 30: drag from (319, 525) to (350, 1020)
Your task to perform on an android device: Search for "logitech g910" on target.com, select the first entry, add it to the cart, then select checkout. Image 31: 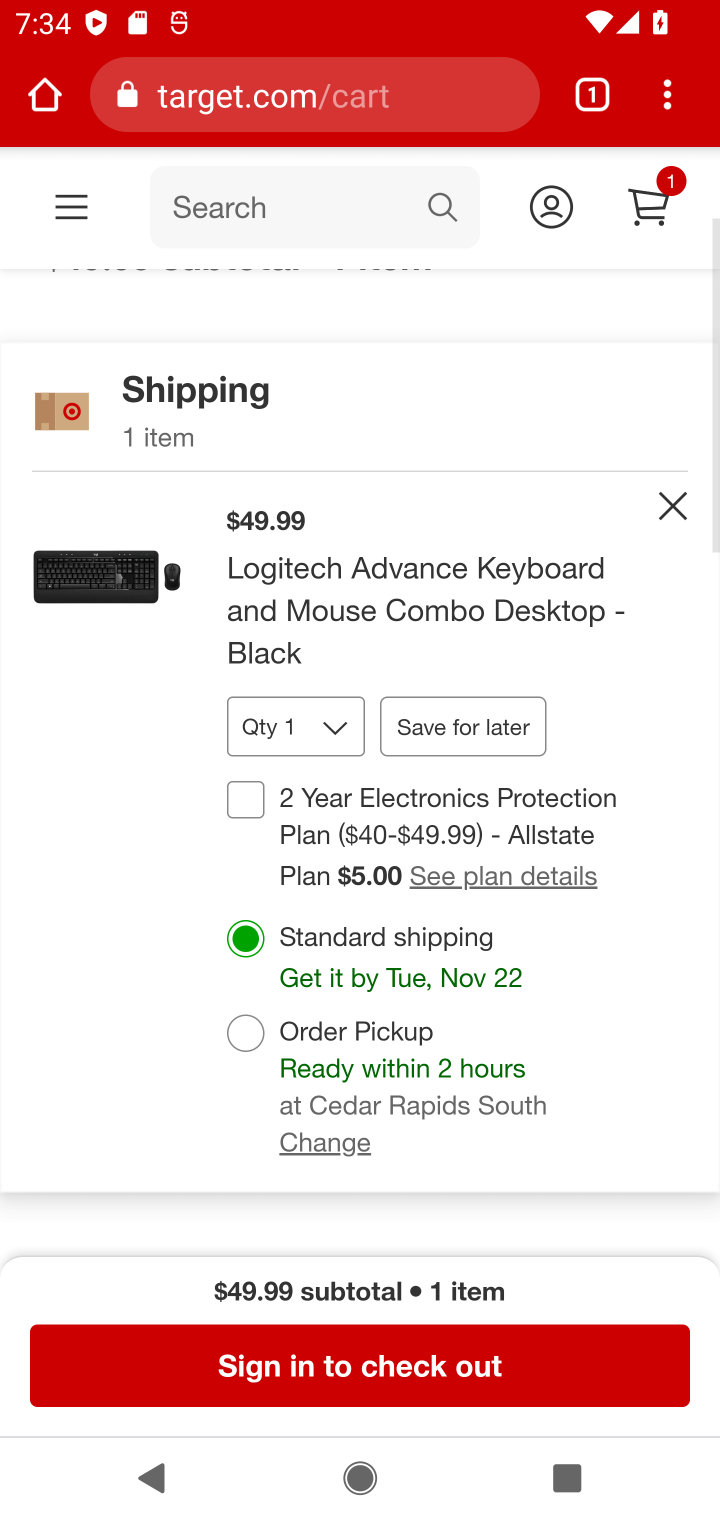
Step 31: drag from (247, 366) to (239, 890)
Your task to perform on an android device: Search for "logitech g910" on target.com, select the first entry, add it to the cart, then select checkout. Image 32: 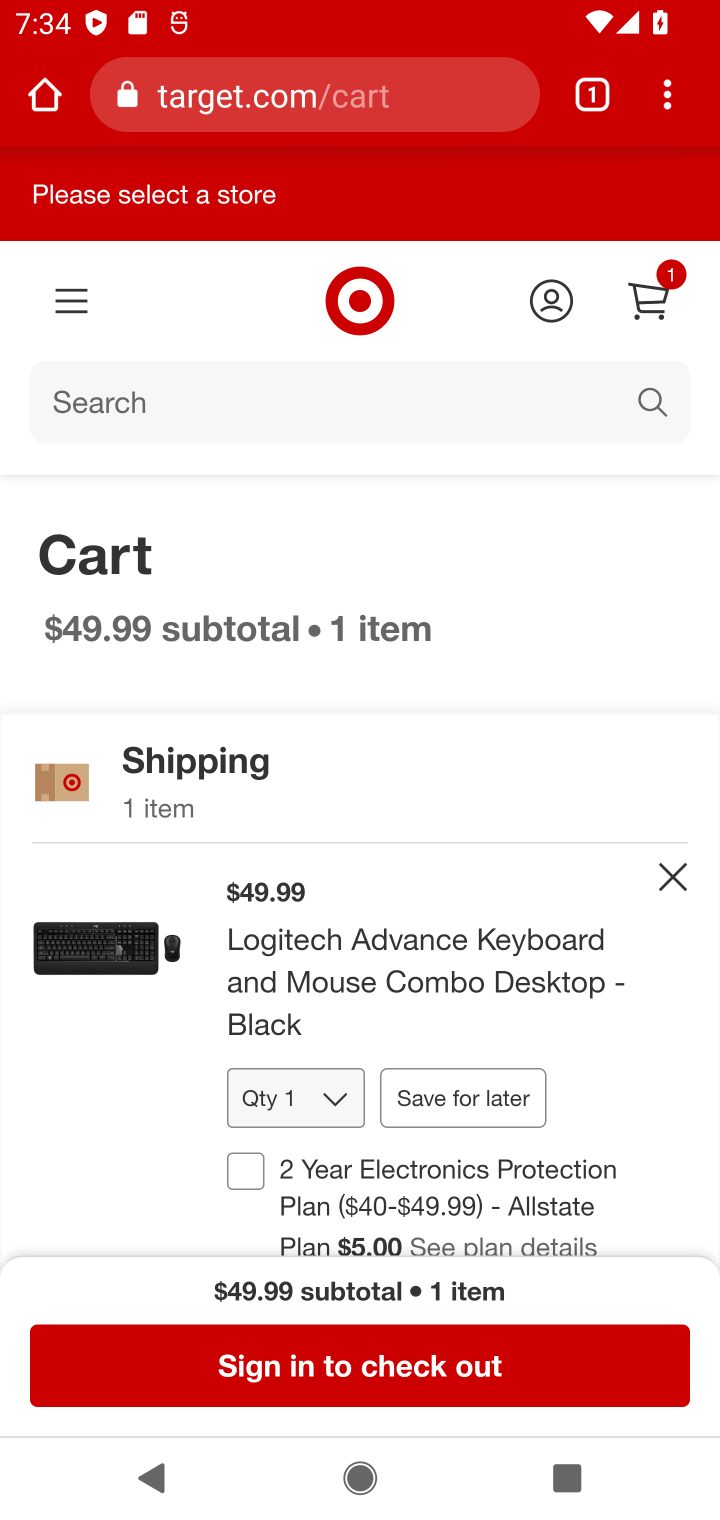
Step 32: drag from (266, 390) to (269, 880)
Your task to perform on an android device: Search for "logitech g910" on target.com, select the first entry, add it to the cart, then select checkout. Image 33: 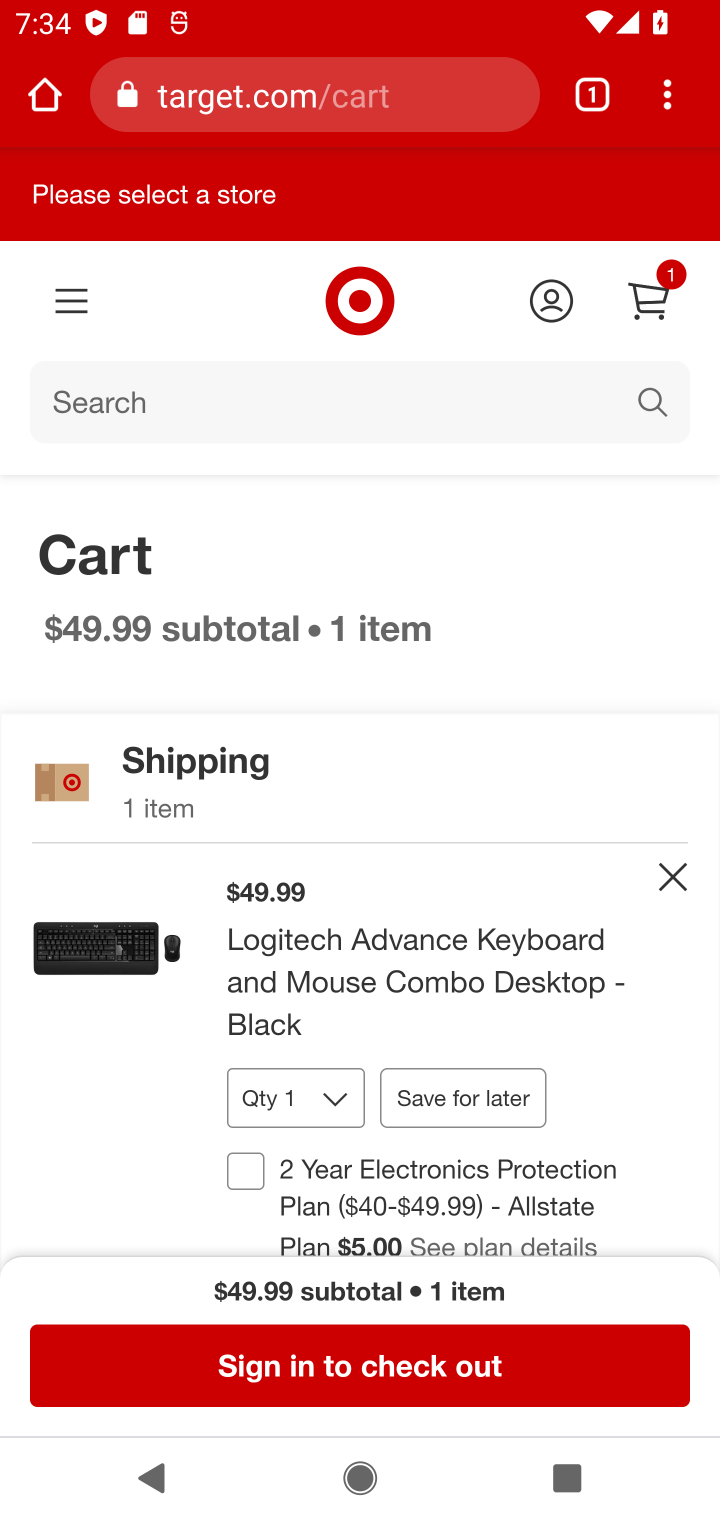
Step 33: click (384, 1366)
Your task to perform on an android device: Search for "logitech g910" on target.com, select the first entry, add it to the cart, then select checkout. Image 34: 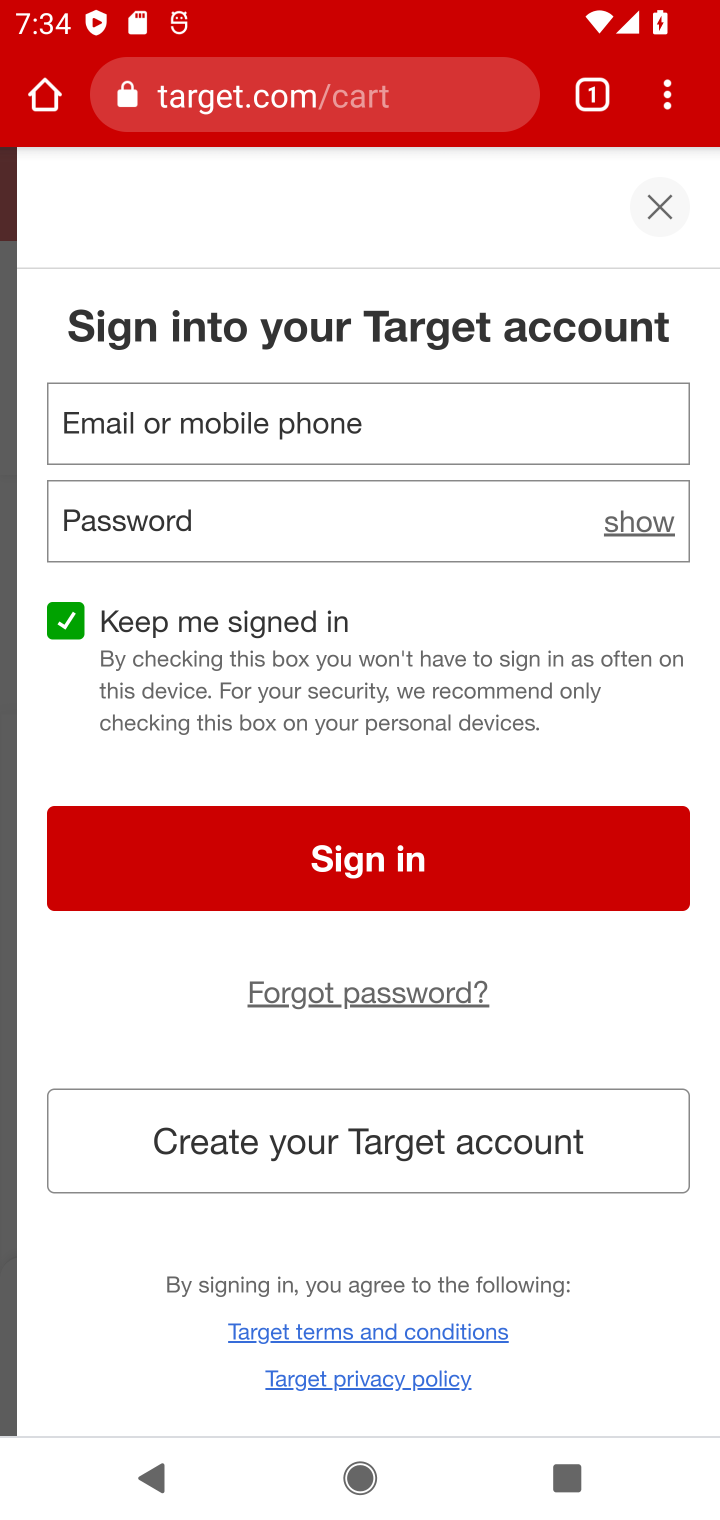
Step 34: task complete